Your task to perform on an android device: Search for hotels in Buenos aires Image 0: 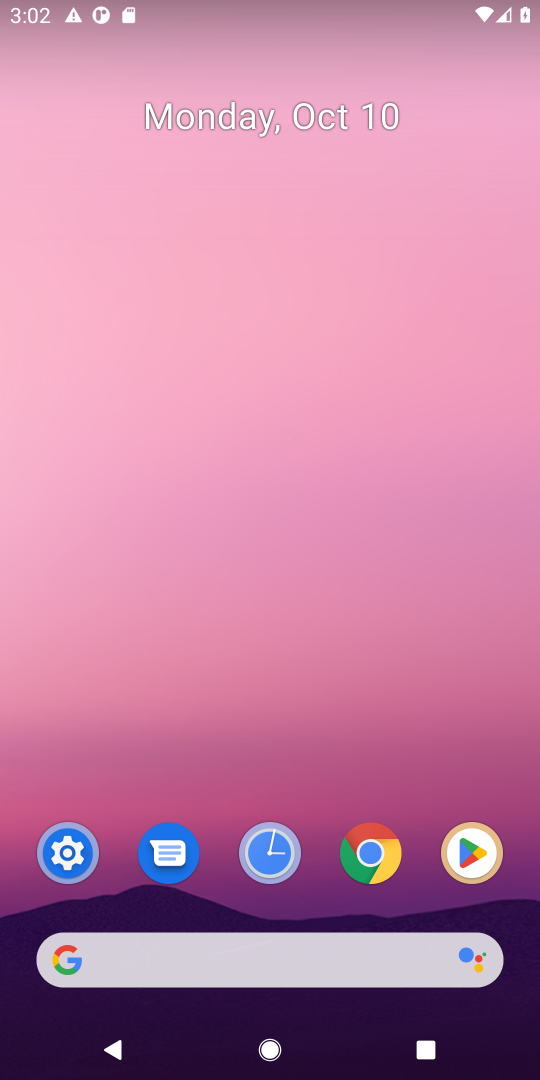
Step 0: click (378, 867)
Your task to perform on an android device: Search for hotels in Buenos aires Image 1: 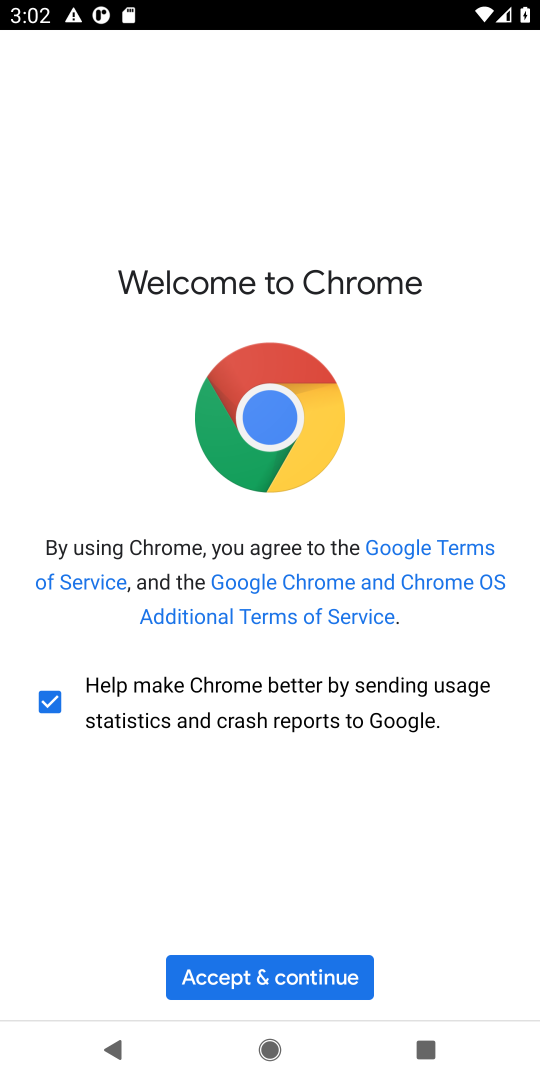
Step 1: click (240, 975)
Your task to perform on an android device: Search for hotels in Buenos aires Image 2: 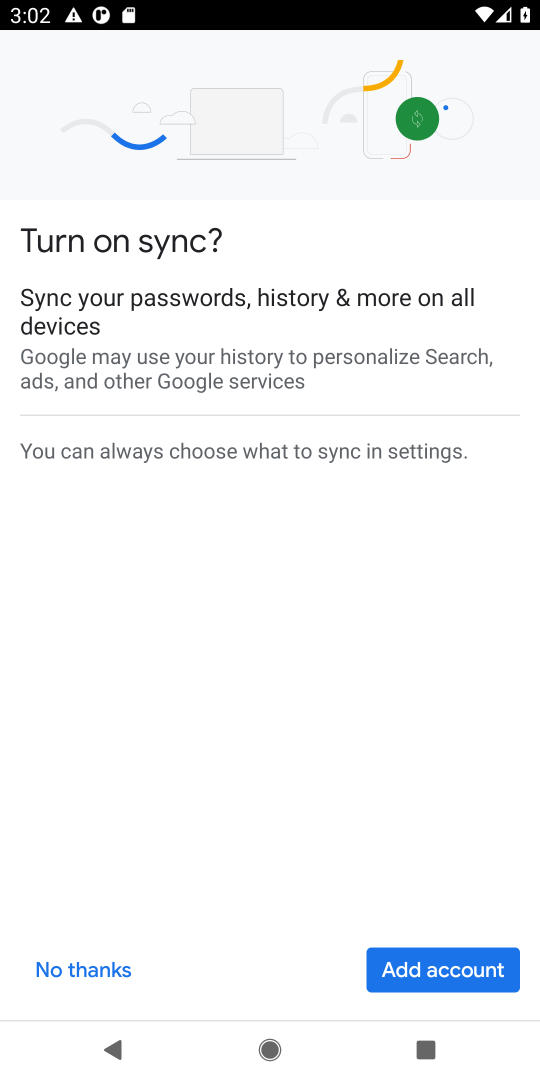
Step 2: click (34, 962)
Your task to perform on an android device: Search for hotels in Buenos aires Image 3: 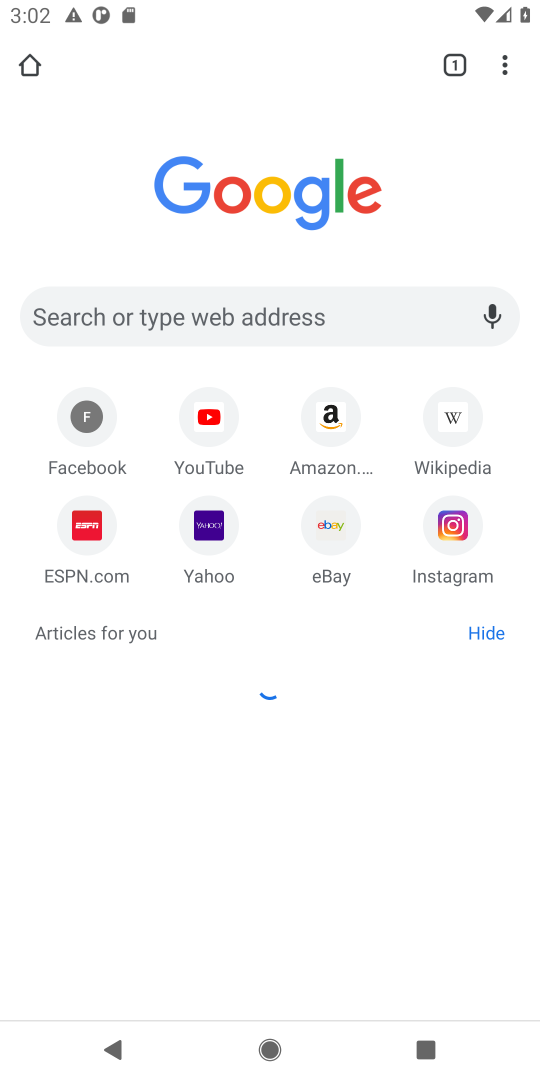
Step 3: click (306, 341)
Your task to perform on an android device: Search for hotels in Buenos aires Image 4: 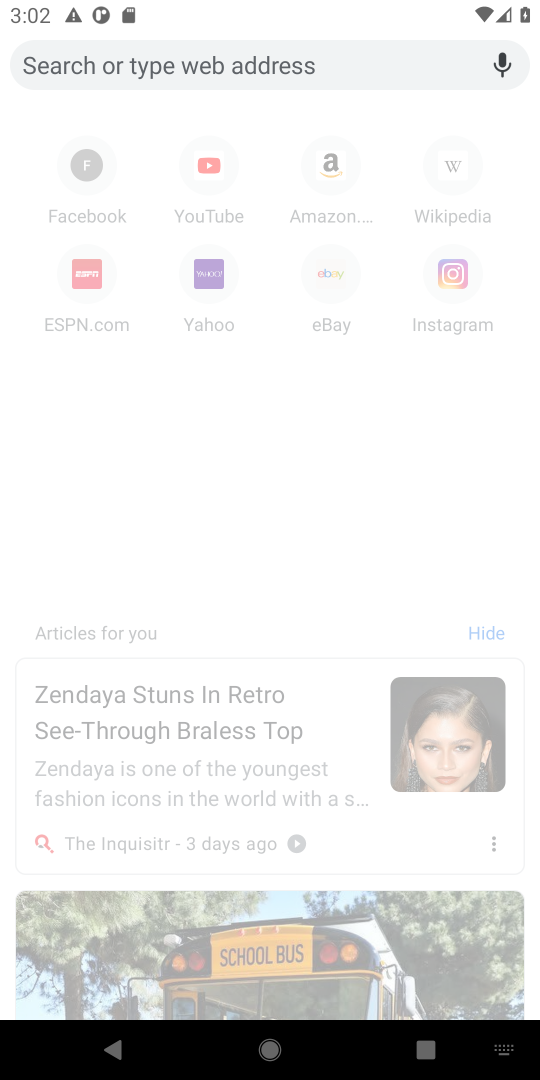
Step 4: type "hotels in Buenos aires"
Your task to perform on an android device: Search for hotels in Buenos aires Image 5: 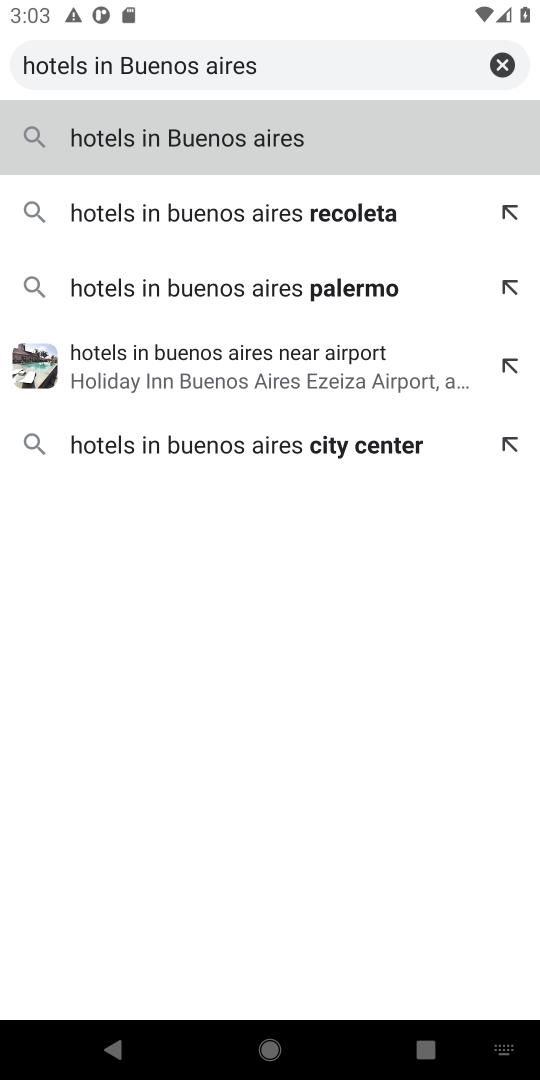
Step 5: press enter
Your task to perform on an android device: Search for hotels in Buenos aires Image 6: 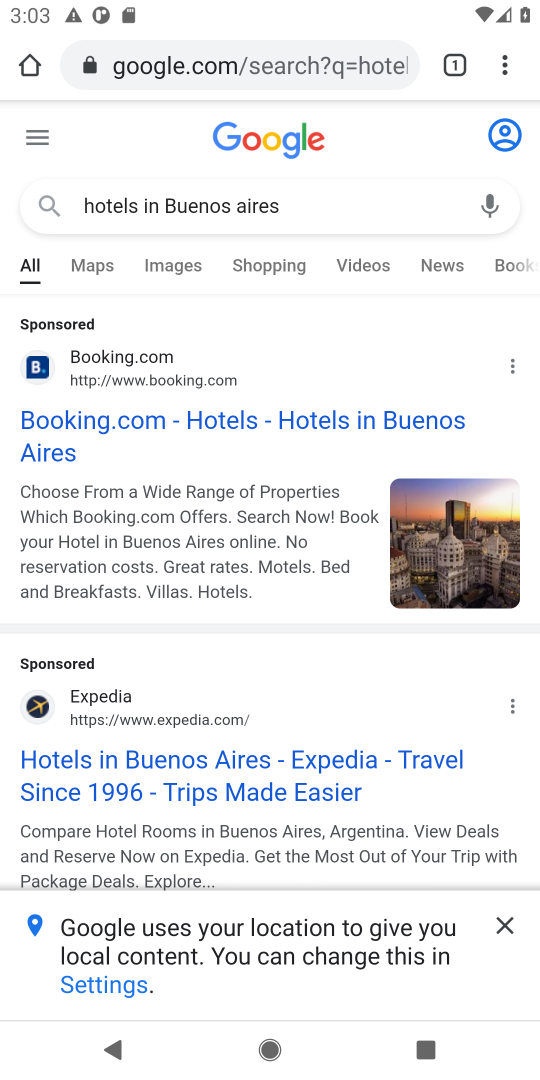
Step 6: click (290, 421)
Your task to perform on an android device: Search for hotels in Buenos aires Image 7: 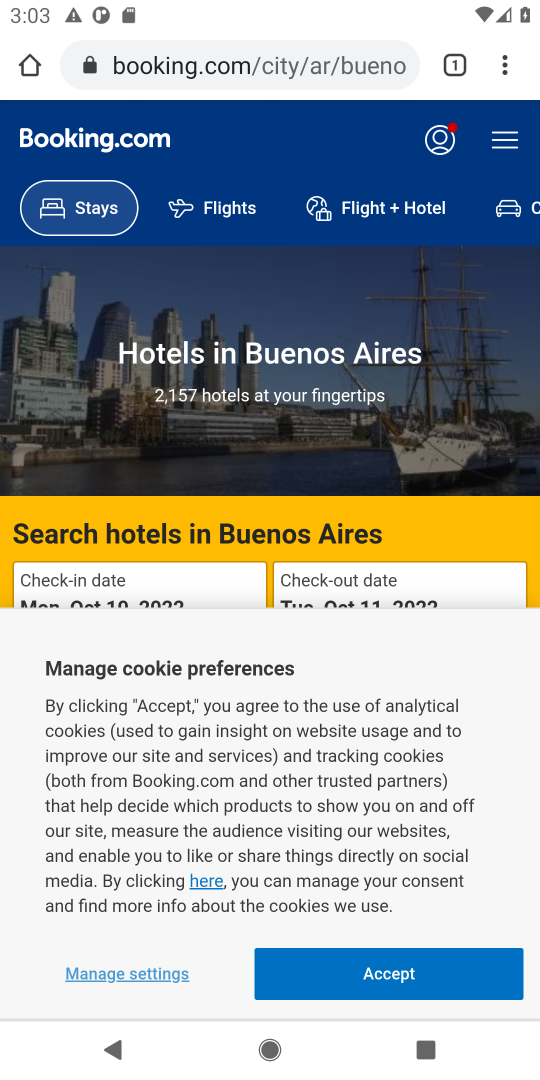
Step 7: click (310, 264)
Your task to perform on an android device: Search for hotels in Buenos aires Image 8: 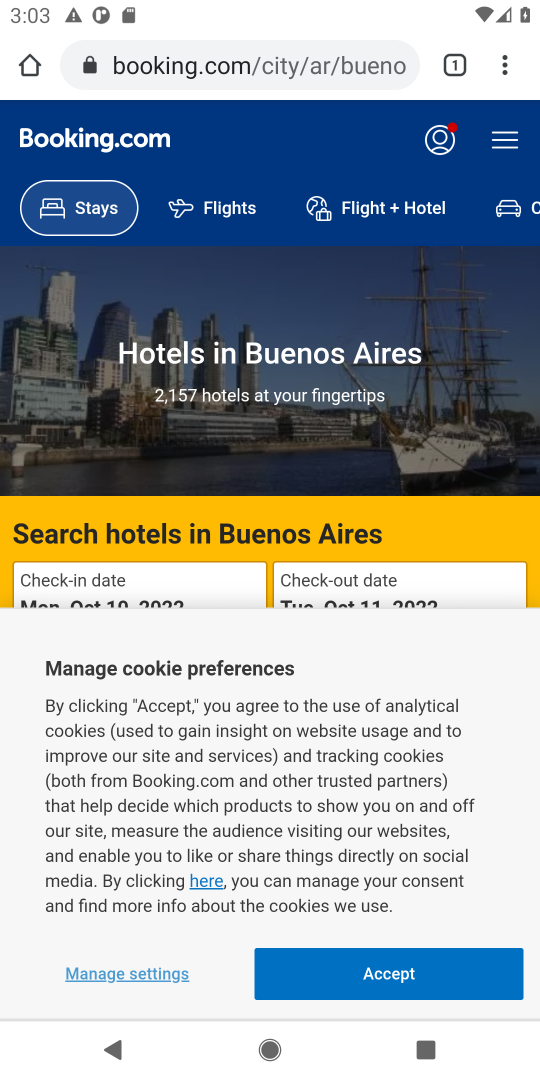
Step 8: click (386, 974)
Your task to perform on an android device: Search for hotels in Buenos aires Image 9: 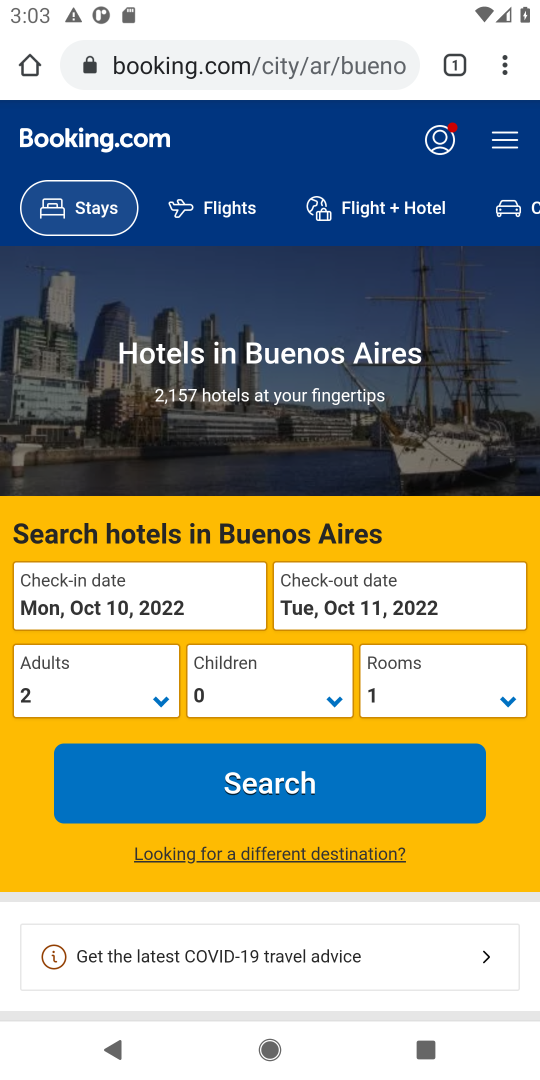
Step 9: drag from (396, 934) to (418, 234)
Your task to perform on an android device: Search for hotels in Buenos aires Image 10: 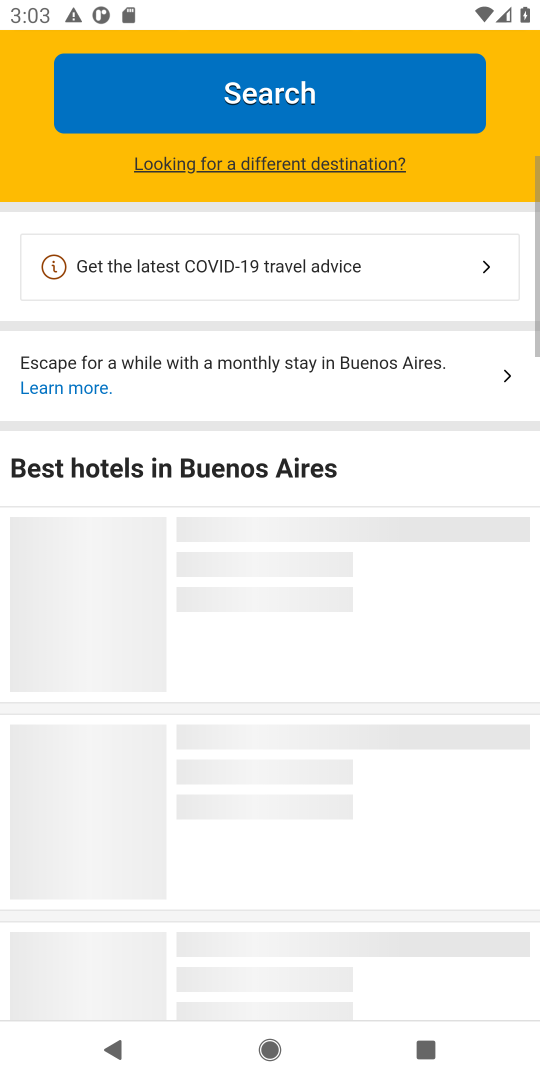
Step 10: drag from (316, 731) to (432, 259)
Your task to perform on an android device: Search for hotels in Buenos aires Image 11: 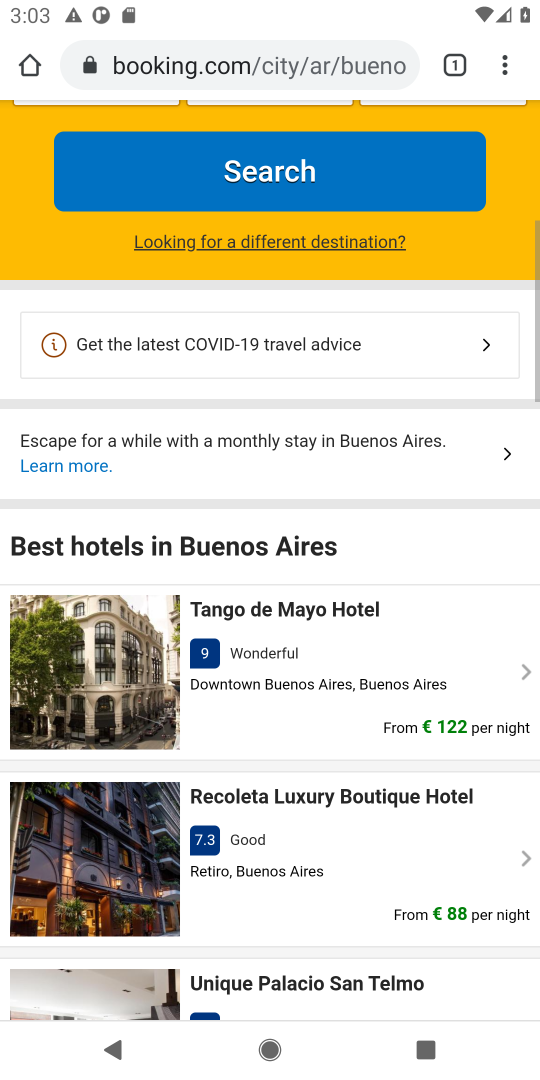
Step 11: drag from (400, 686) to (429, 180)
Your task to perform on an android device: Search for hotels in Buenos aires Image 12: 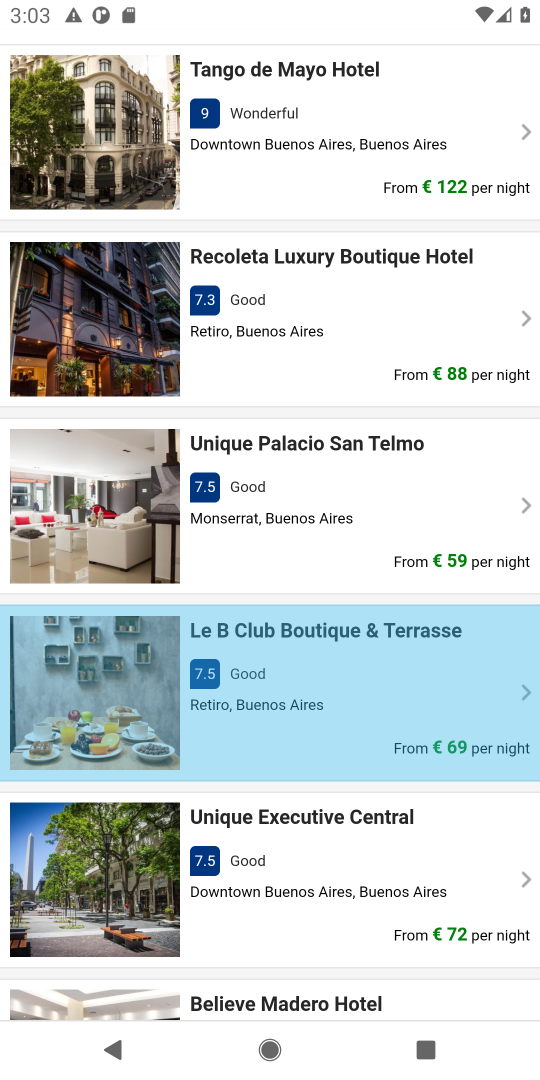
Step 12: drag from (442, 282) to (415, 409)
Your task to perform on an android device: Search for hotels in Buenos aires Image 13: 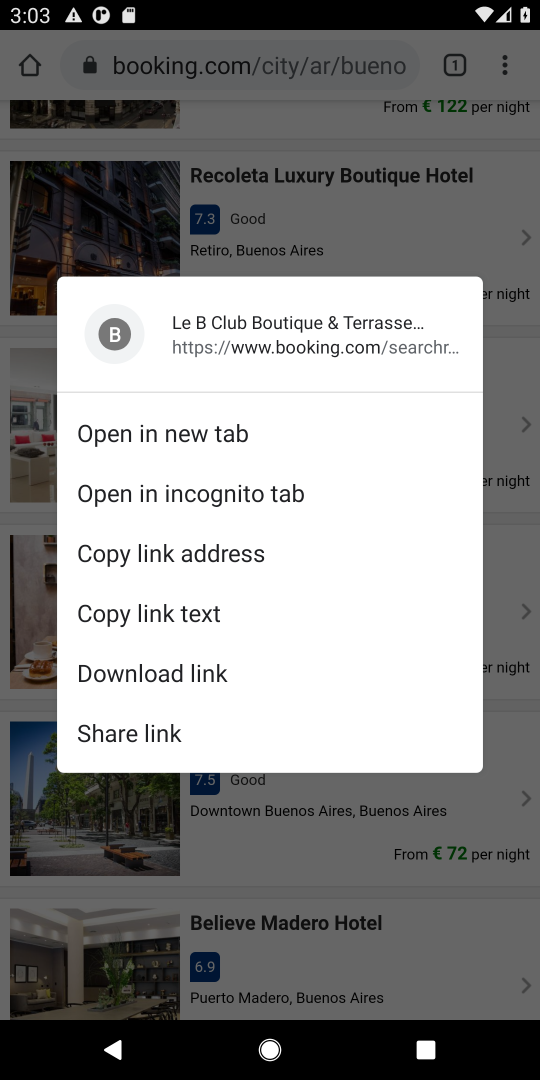
Step 13: drag from (398, 677) to (405, 503)
Your task to perform on an android device: Search for hotels in Buenos aires Image 14: 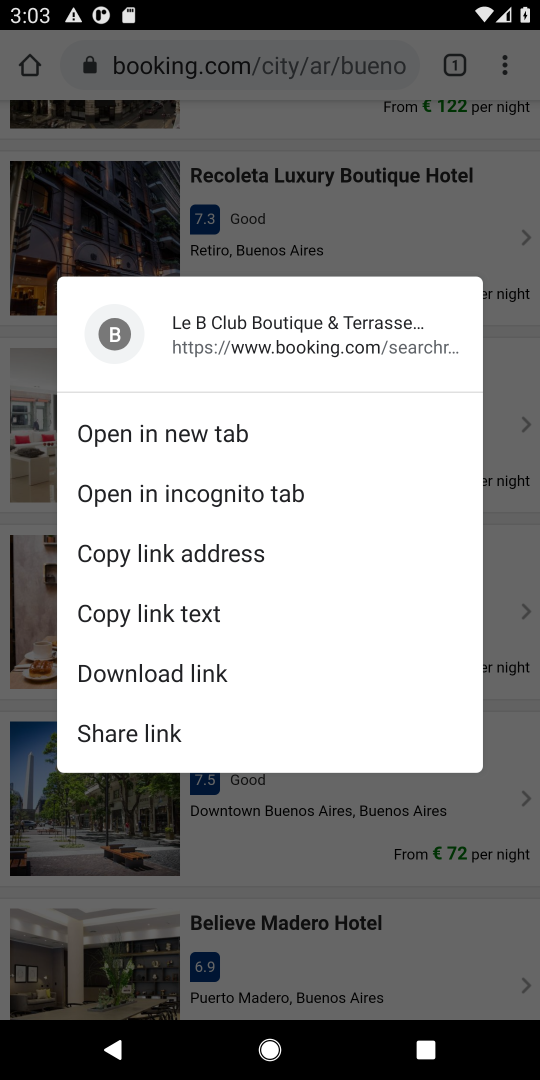
Step 14: click (371, 153)
Your task to perform on an android device: Search for hotels in Buenos aires Image 15: 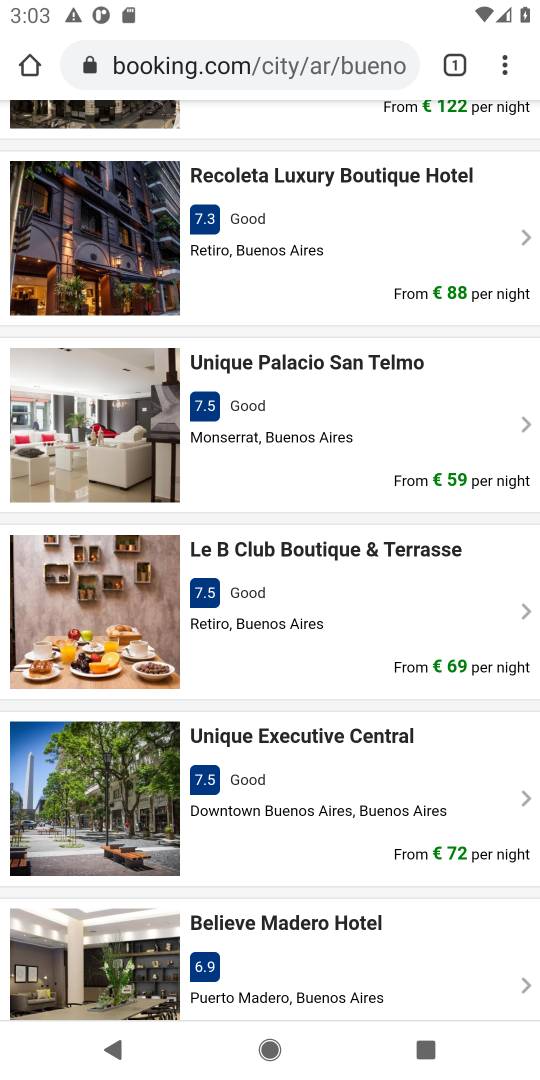
Step 15: drag from (290, 674) to (342, 235)
Your task to perform on an android device: Search for hotels in Buenos aires Image 16: 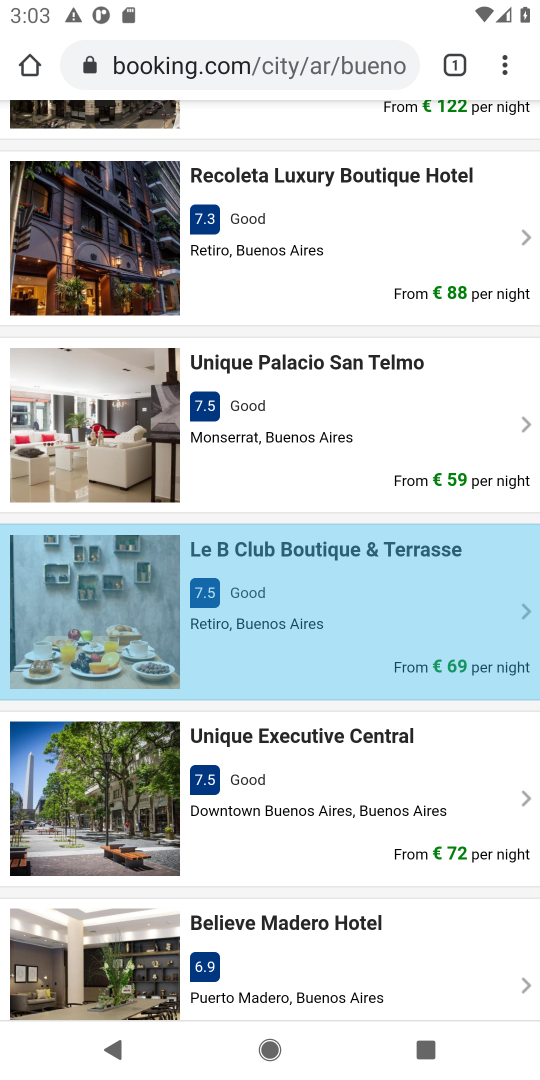
Step 16: drag from (269, 657) to (311, 297)
Your task to perform on an android device: Search for hotels in Buenos aires Image 17: 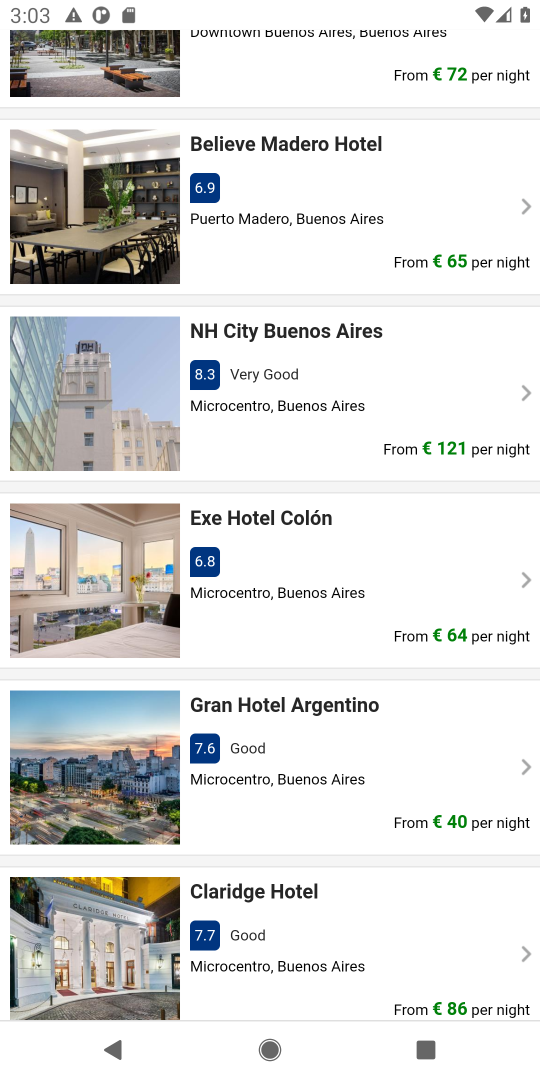
Step 17: press back button
Your task to perform on an android device: Search for hotels in Buenos aires Image 18: 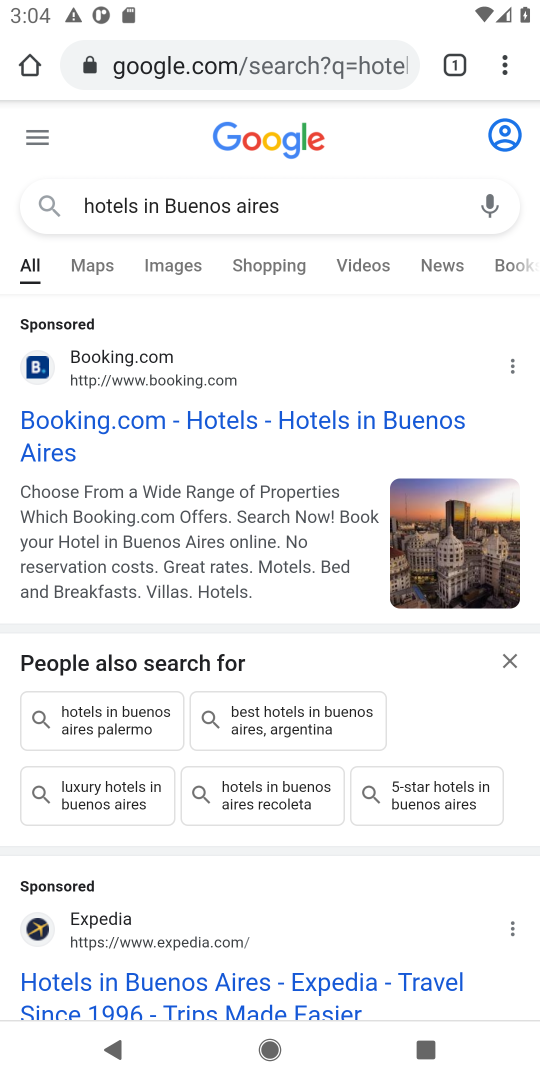
Step 18: drag from (448, 373) to (447, 298)
Your task to perform on an android device: Search for hotels in Buenos aires Image 19: 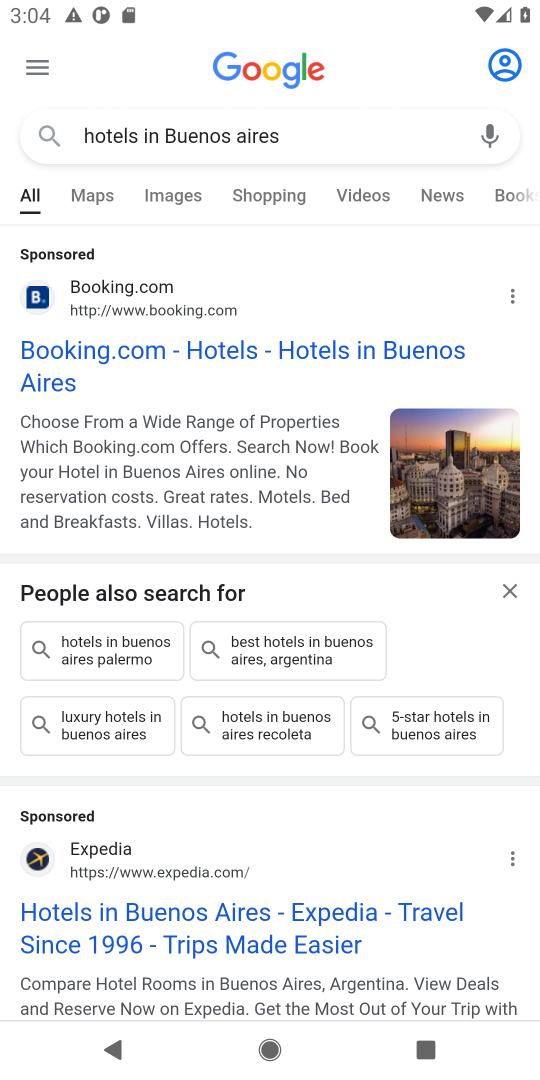
Step 19: click (180, 903)
Your task to perform on an android device: Search for hotels in Buenos aires Image 20: 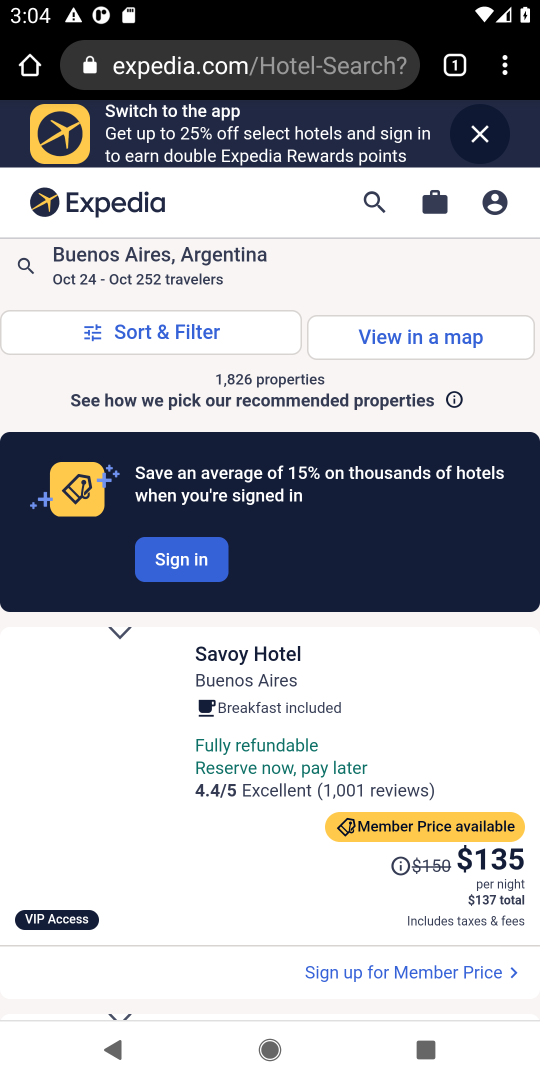
Step 20: drag from (186, 933) to (257, 443)
Your task to perform on an android device: Search for hotels in Buenos aires Image 21: 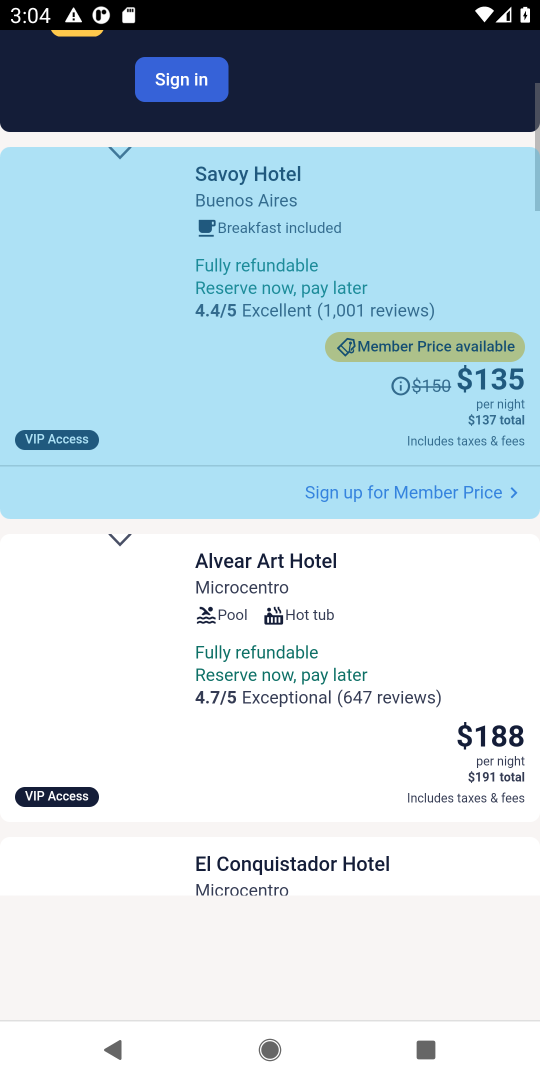
Step 21: drag from (233, 714) to (267, 348)
Your task to perform on an android device: Search for hotels in Buenos aires Image 22: 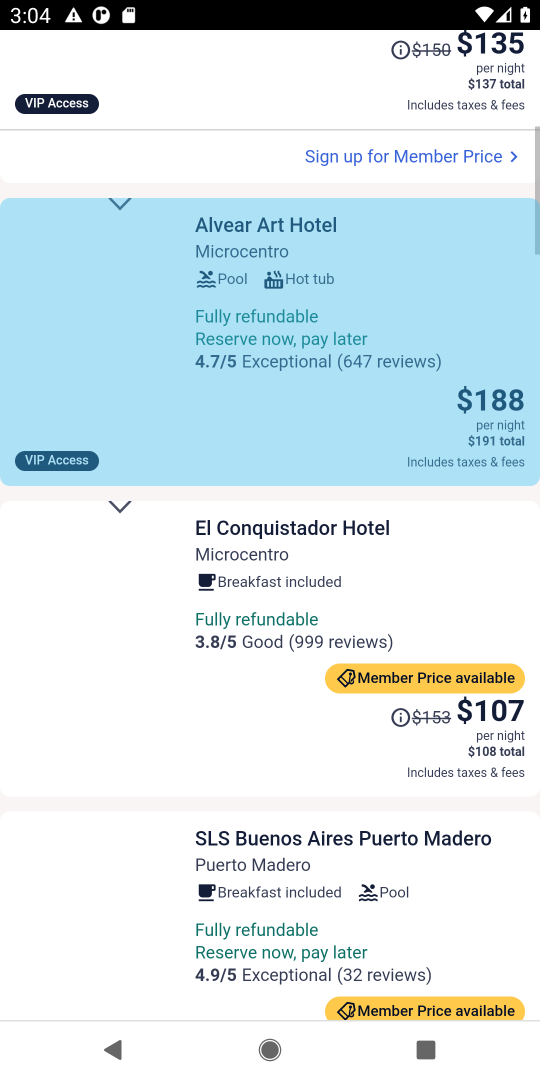
Step 22: drag from (231, 676) to (242, 402)
Your task to perform on an android device: Search for hotels in Buenos aires Image 23: 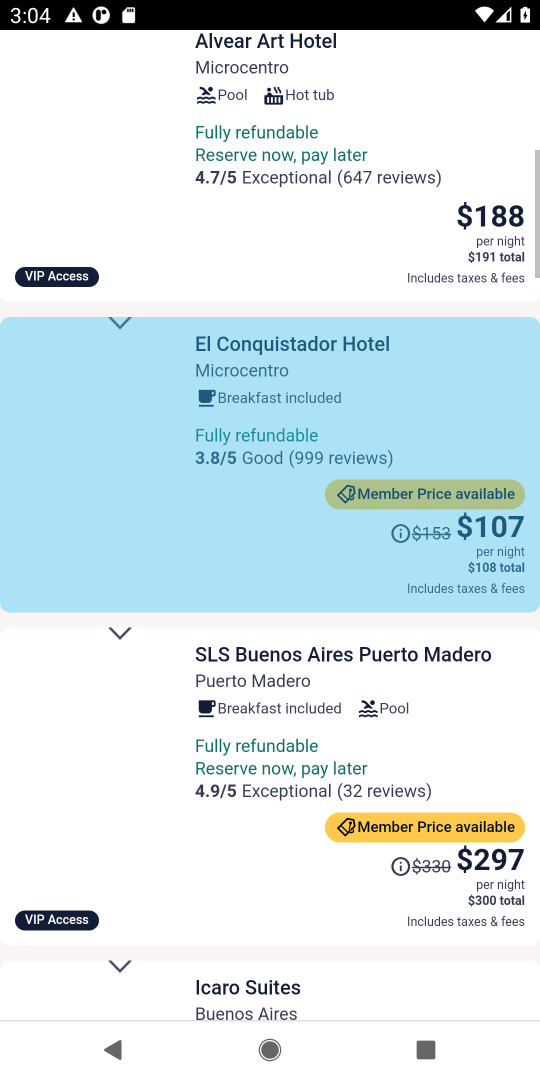
Step 23: drag from (250, 638) to (264, 377)
Your task to perform on an android device: Search for hotels in Buenos aires Image 24: 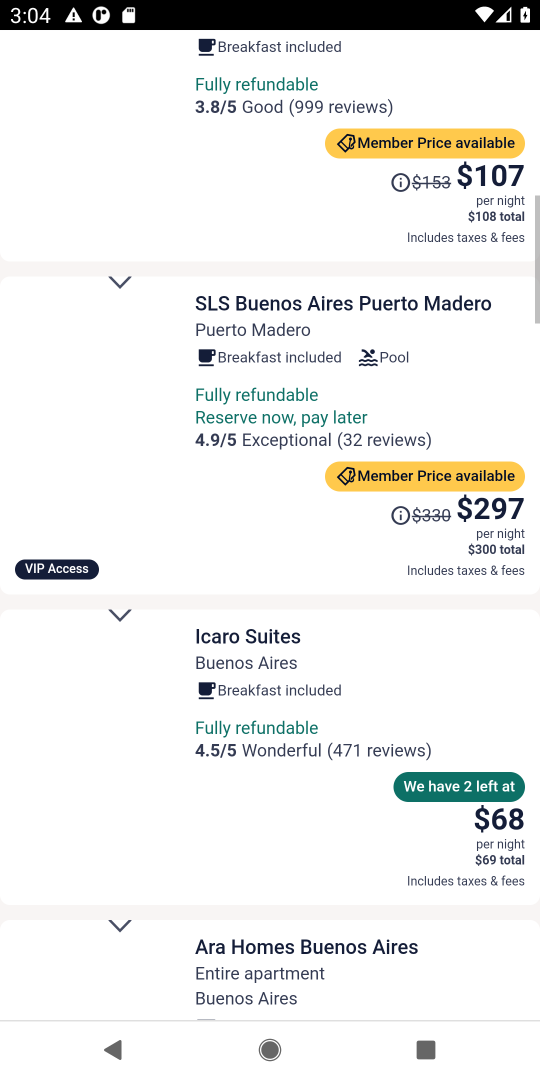
Step 24: drag from (249, 596) to (306, 261)
Your task to perform on an android device: Search for hotels in Buenos aires Image 25: 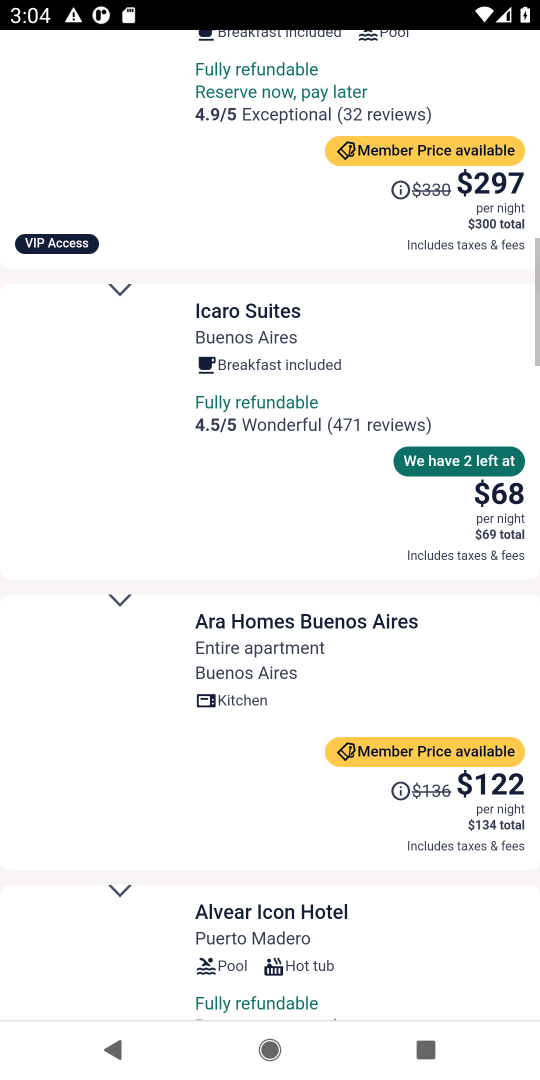
Step 25: drag from (362, 422) to (389, 319)
Your task to perform on an android device: Search for hotels in Buenos aires Image 26: 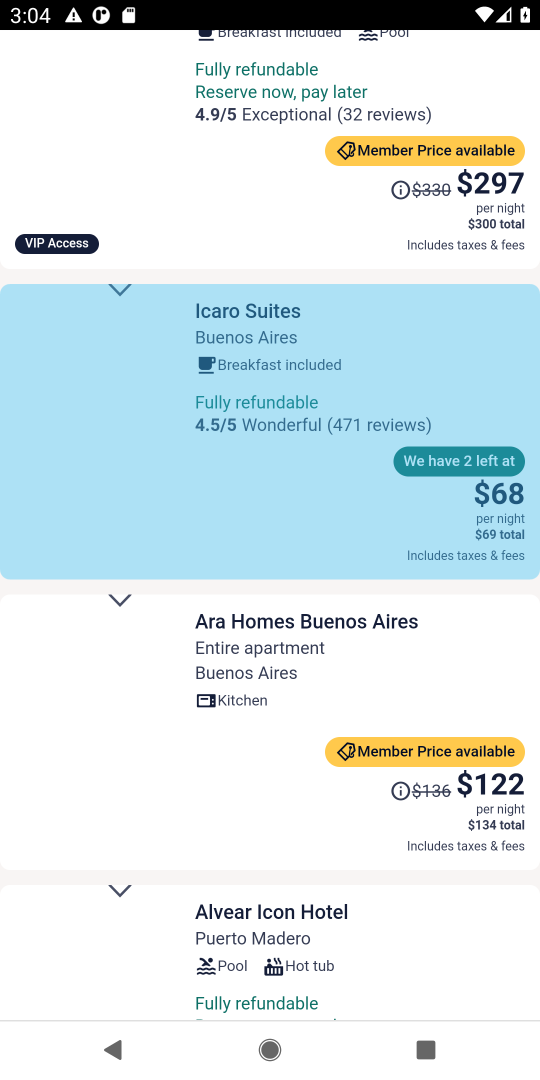
Step 26: drag from (335, 401) to (350, 256)
Your task to perform on an android device: Search for hotels in Buenos aires Image 27: 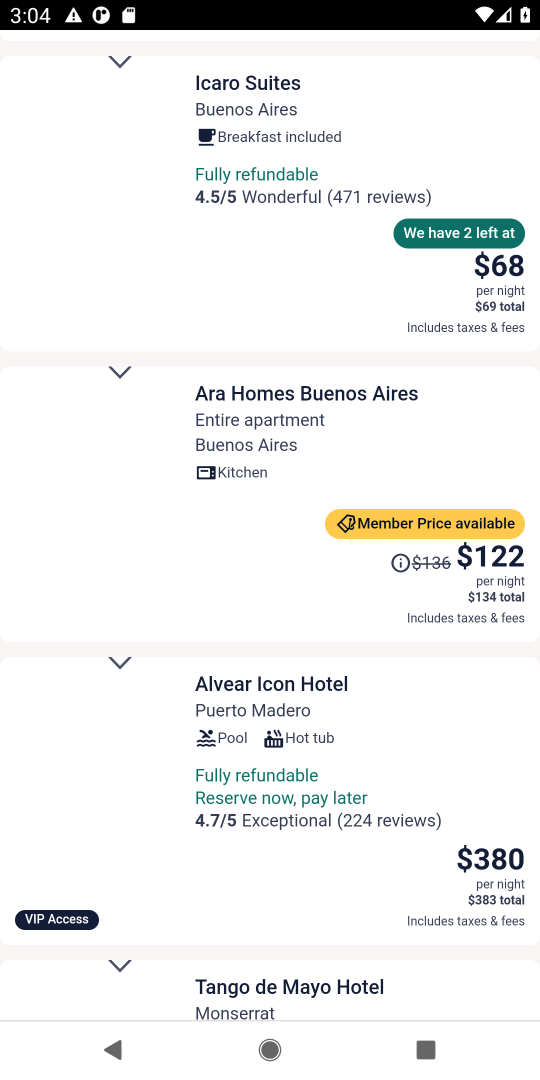
Step 27: drag from (358, 608) to (372, 275)
Your task to perform on an android device: Search for hotels in Buenos aires Image 28: 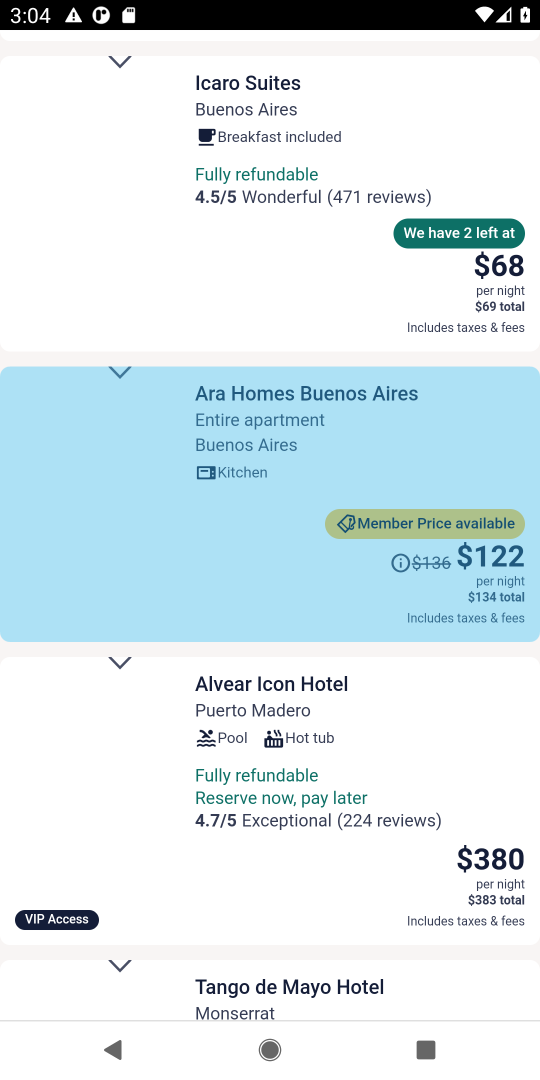
Step 28: drag from (261, 793) to (318, 426)
Your task to perform on an android device: Search for hotels in Buenos aires Image 29: 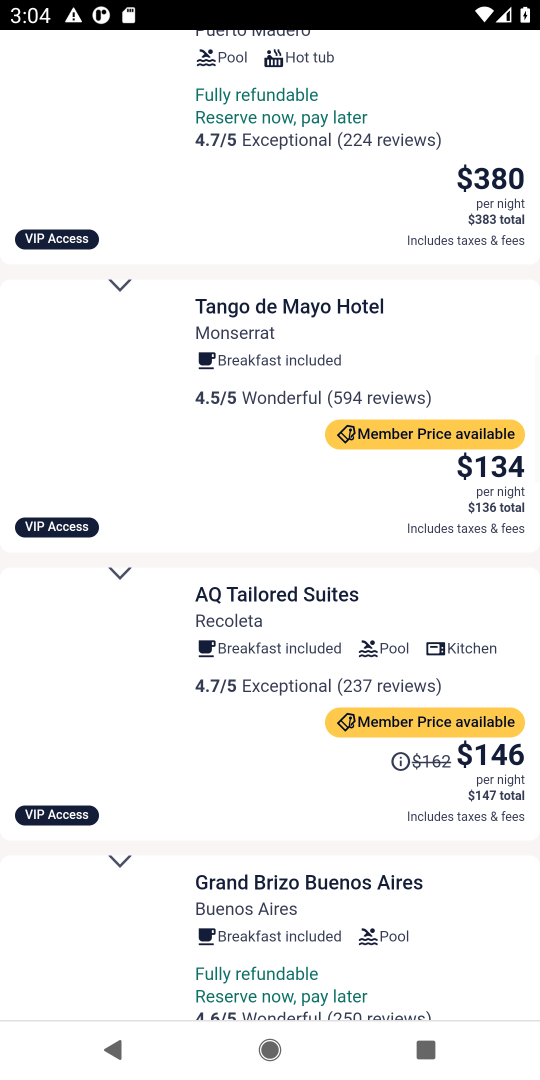
Step 29: press back button
Your task to perform on an android device: Search for hotels in Buenos aires Image 30: 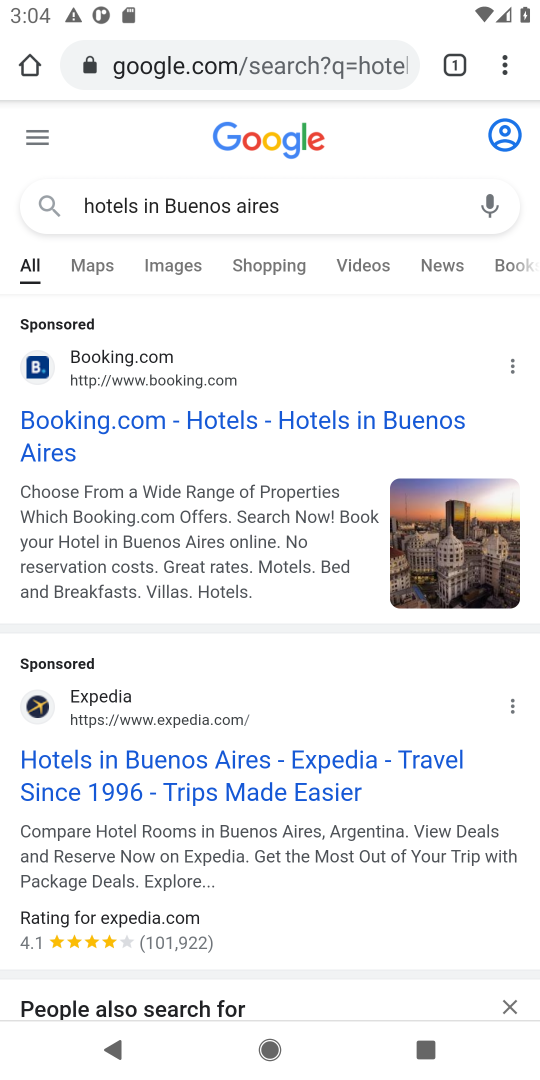
Step 30: drag from (459, 657) to (493, 277)
Your task to perform on an android device: Search for hotels in Buenos aires Image 31: 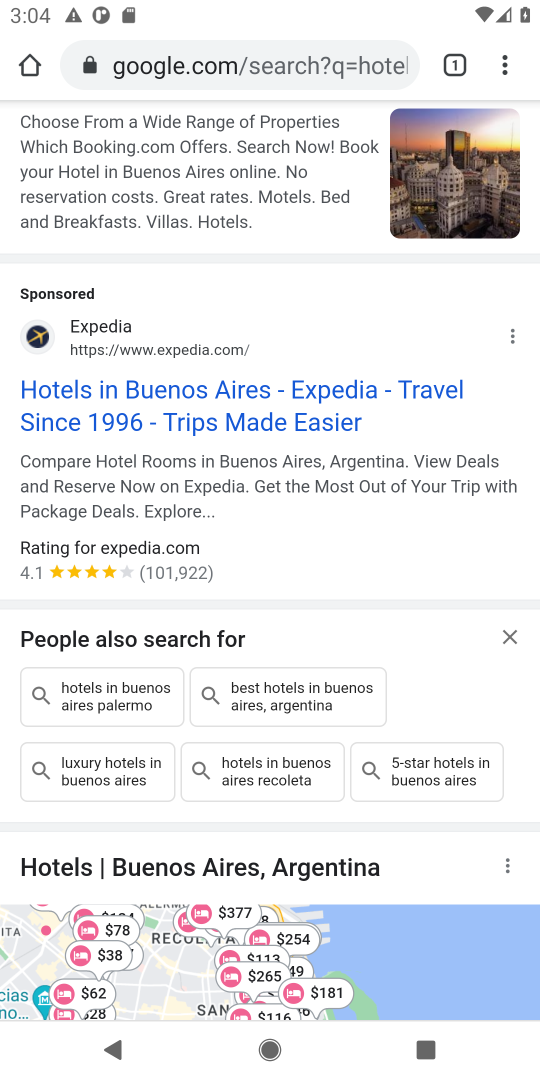
Step 31: drag from (397, 861) to (416, 237)
Your task to perform on an android device: Search for hotels in Buenos aires Image 32: 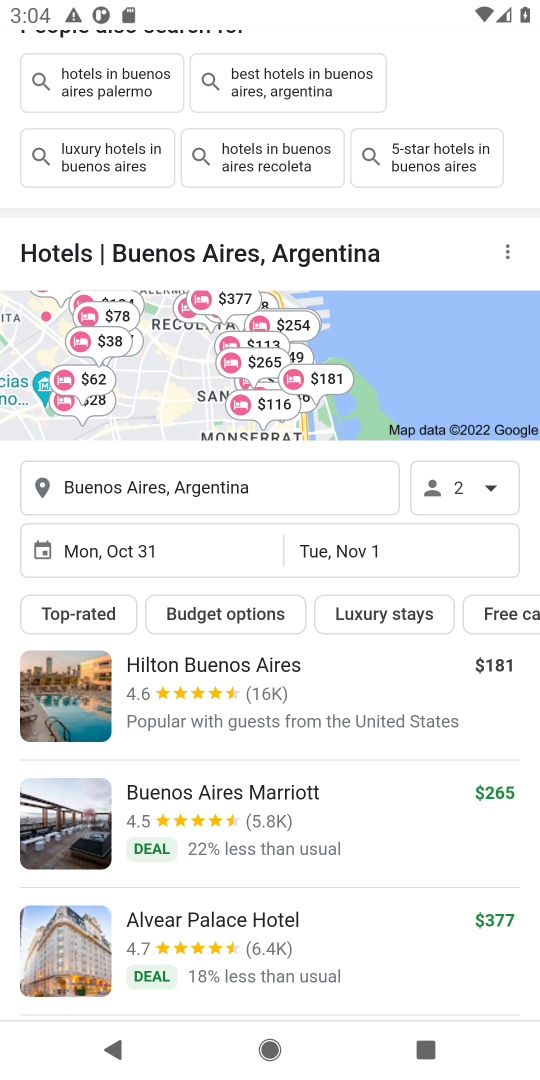
Step 32: drag from (401, 902) to (405, 136)
Your task to perform on an android device: Search for hotels in Buenos aires Image 33: 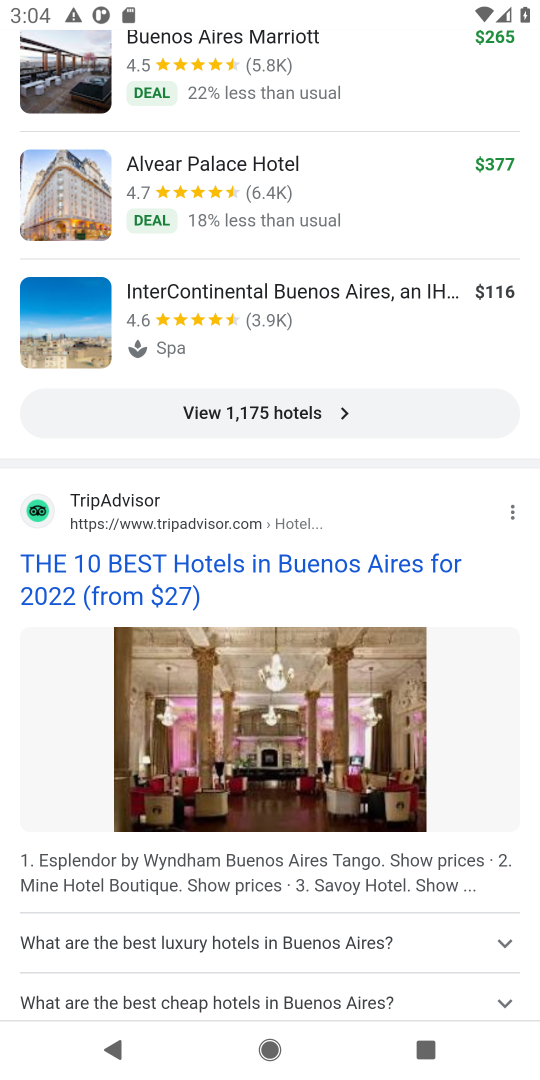
Step 33: drag from (296, 789) to (290, 339)
Your task to perform on an android device: Search for hotels in Buenos aires Image 34: 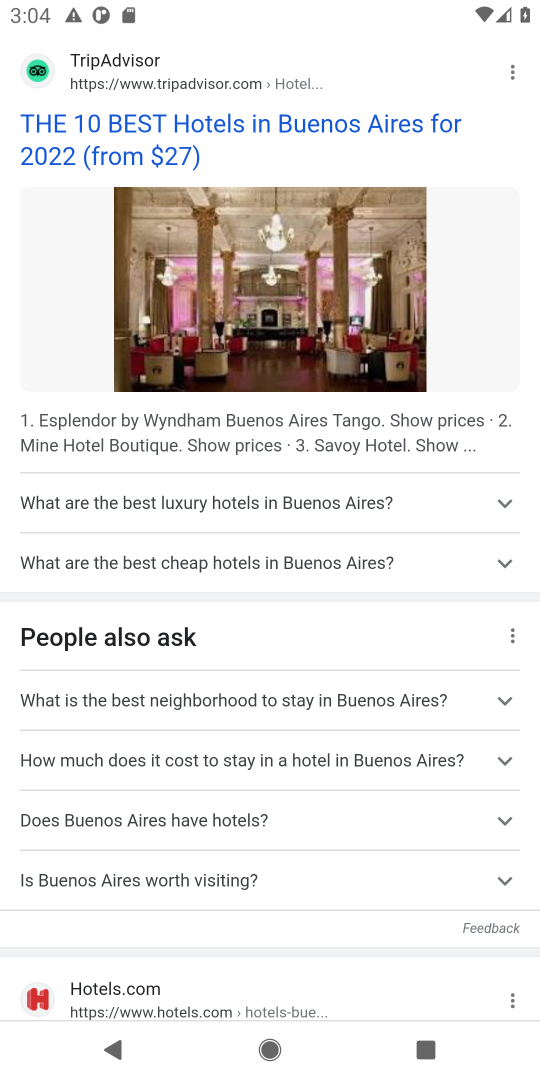
Step 34: click (142, 991)
Your task to perform on an android device: Search for hotels in Buenos aires Image 35: 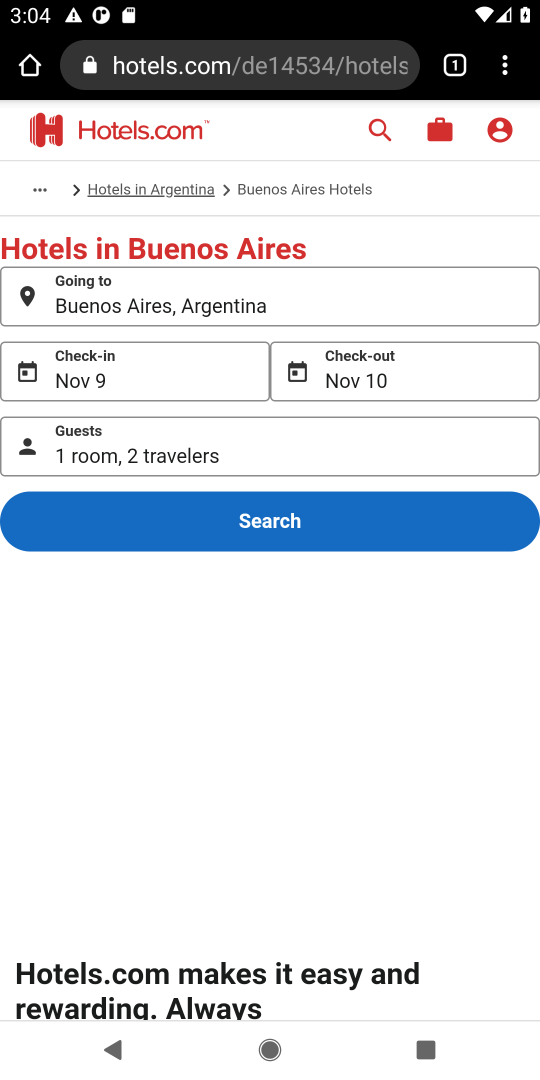
Step 35: drag from (204, 887) to (297, 236)
Your task to perform on an android device: Search for hotels in Buenos aires Image 36: 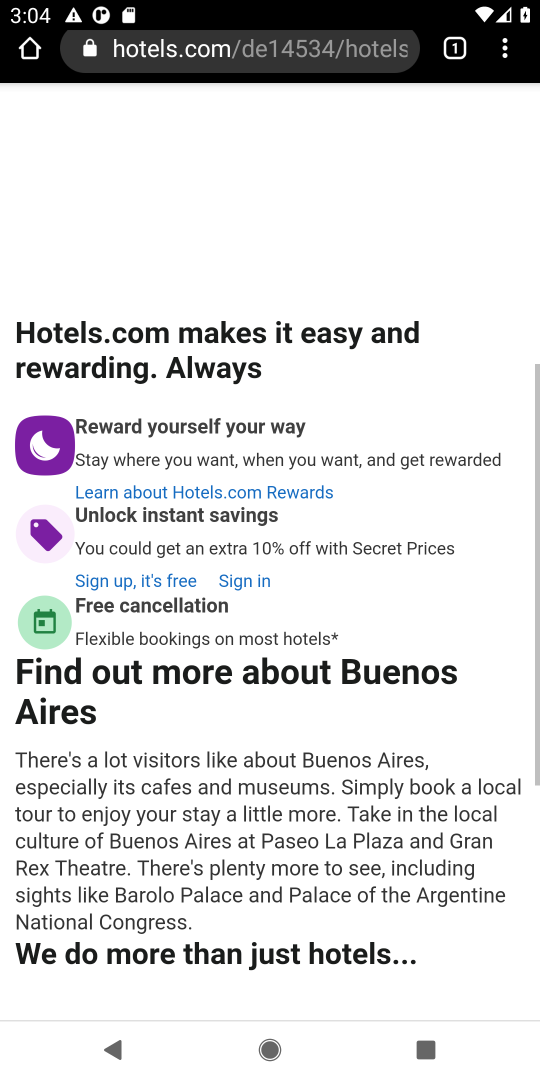
Step 36: drag from (331, 853) to (354, 240)
Your task to perform on an android device: Search for hotels in Buenos aires Image 37: 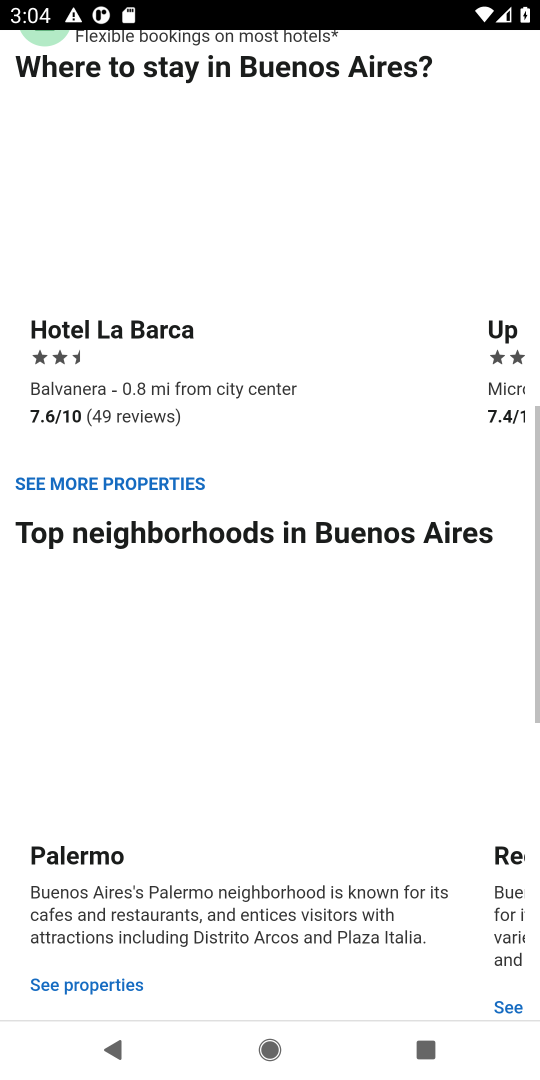
Step 37: drag from (289, 702) to (399, 282)
Your task to perform on an android device: Search for hotels in Buenos aires Image 38: 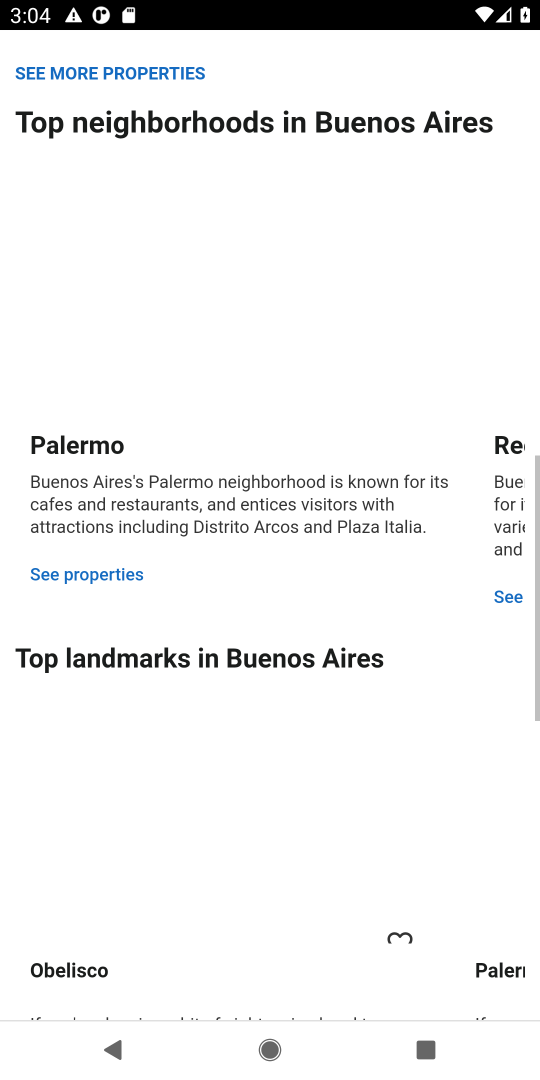
Step 38: drag from (387, 670) to (435, 376)
Your task to perform on an android device: Search for hotels in Buenos aires Image 39: 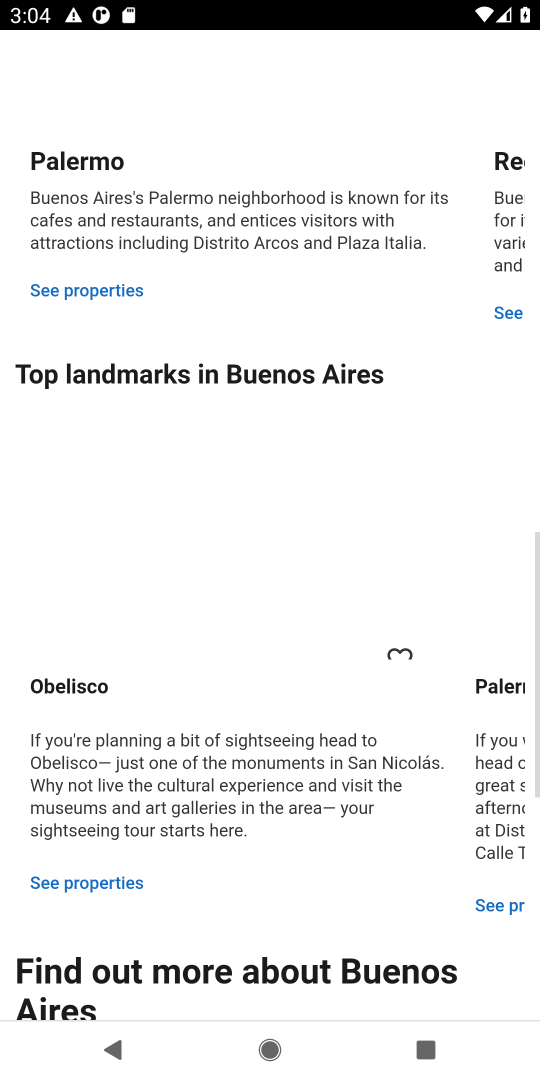
Step 39: drag from (422, 817) to (417, 261)
Your task to perform on an android device: Search for hotels in Buenos aires Image 40: 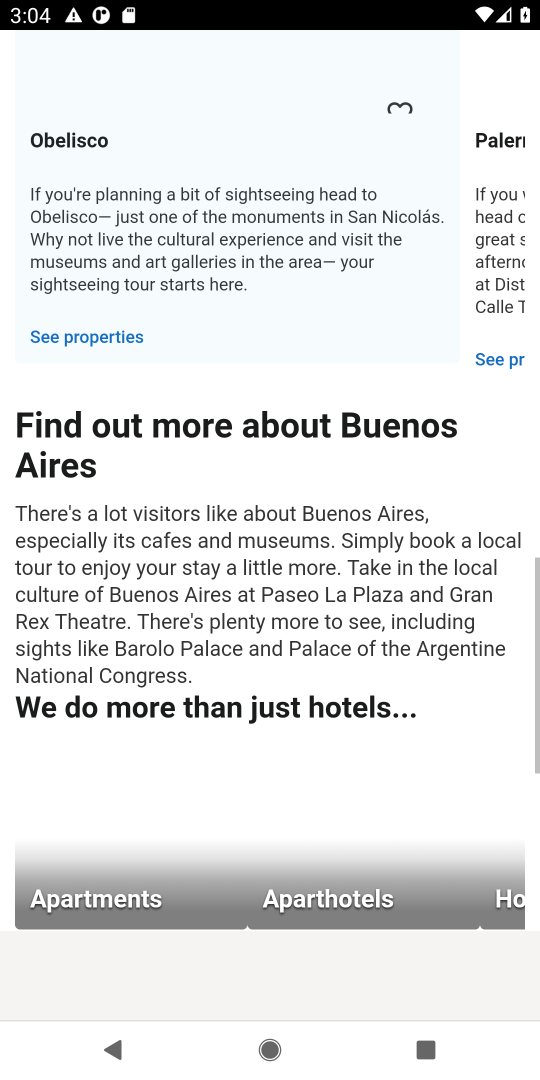
Step 40: drag from (293, 740) to (293, 285)
Your task to perform on an android device: Search for hotels in Buenos aires Image 41: 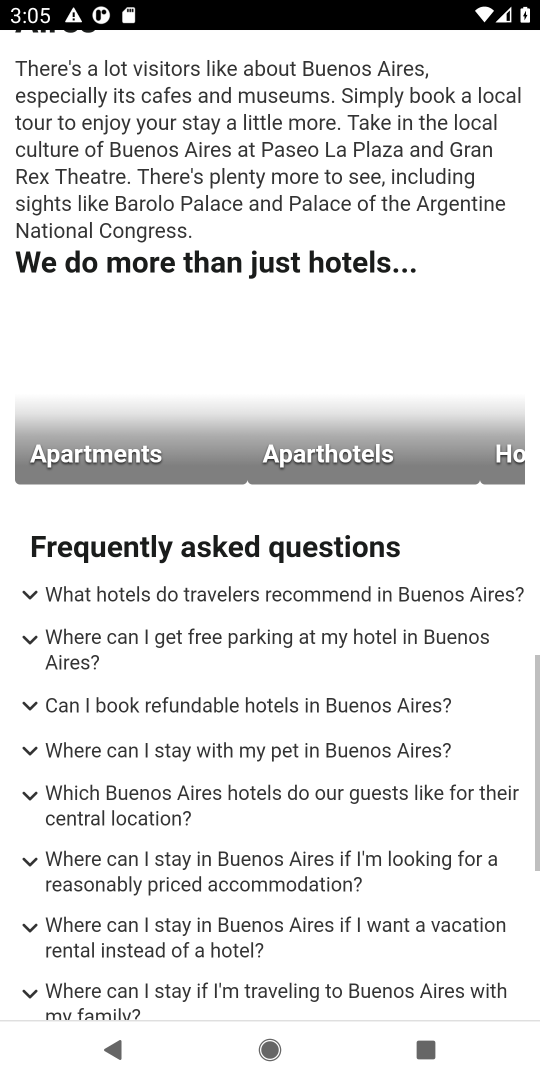
Step 41: drag from (343, 579) to (366, 214)
Your task to perform on an android device: Search for hotels in Buenos aires Image 42: 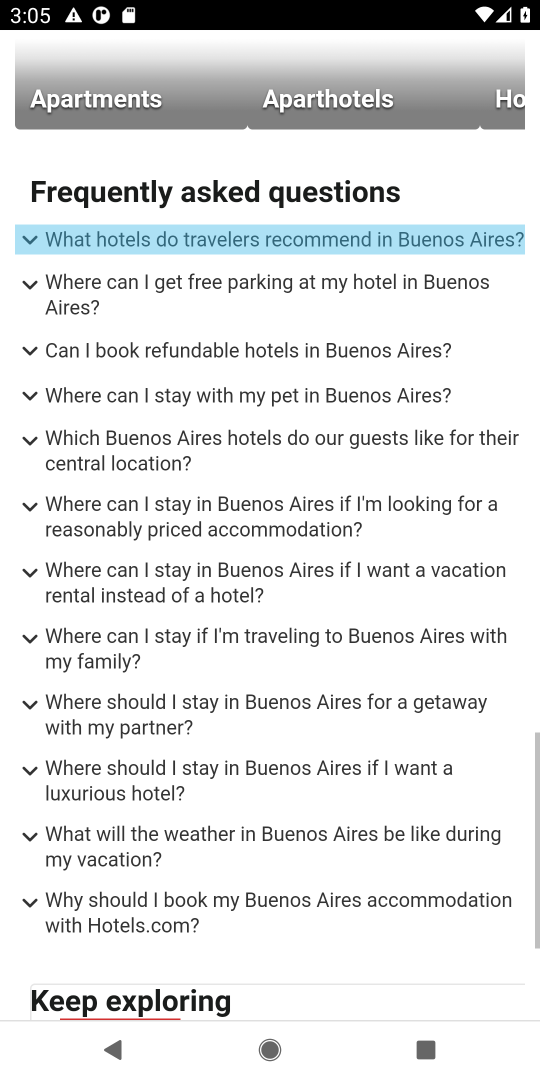
Step 42: drag from (345, 645) to (402, 170)
Your task to perform on an android device: Search for hotels in Buenos aires Image 43: 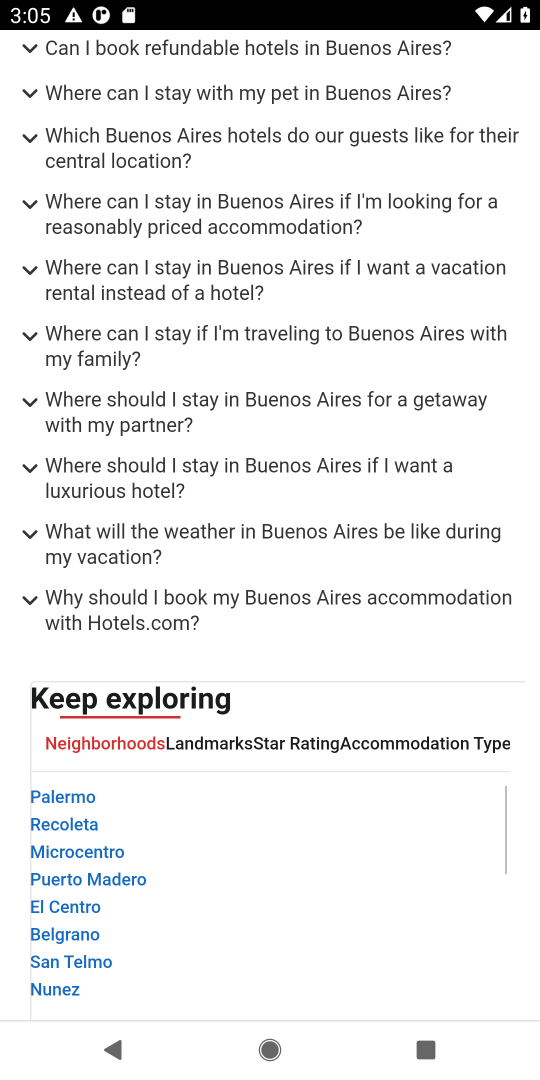
Step 43: drag from (303, 851) to (363, 248)
Your task to perform on an android device: Search for hotels in Buenos aires Image 44: 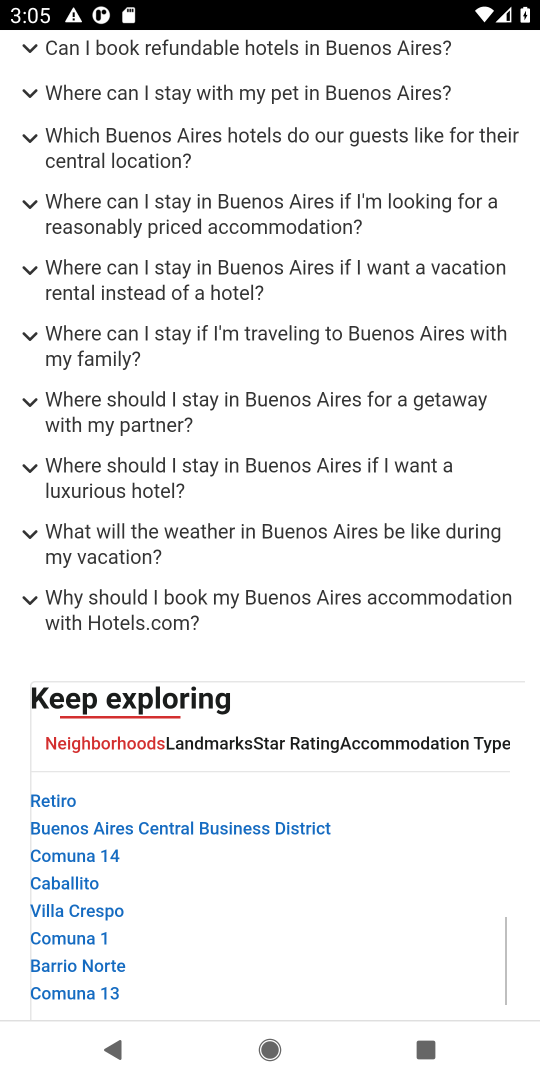
Step 44: drag from (346, 815) to (394, 201)
Your task to perform on an android device: Search for hotels in Buenos aires Image 45: 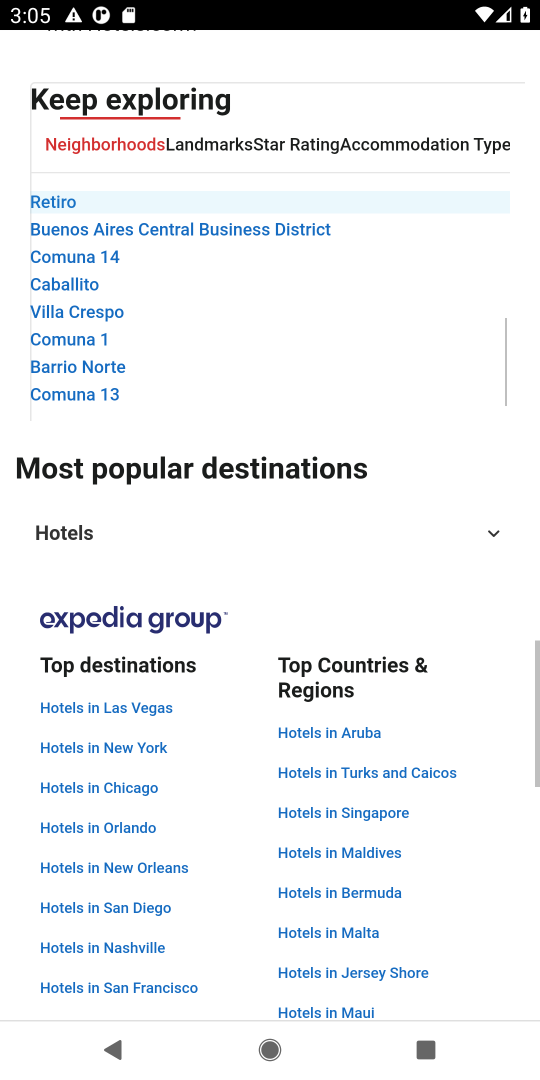
Step 45: drag from (359, 678) to (408, 327)
Your task to perform on an android device: Search for hotels in Buenos aires Image 46: 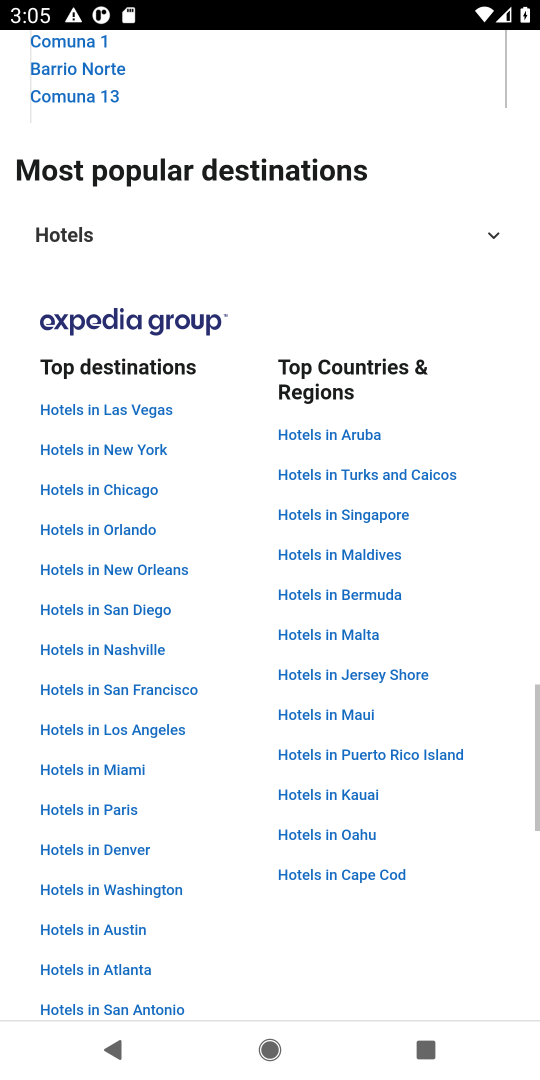
Step 46: drag from (339, 743) to (386, 307)
Your task to perform on an android device: Search for hotels in Buenos aires Image 47: 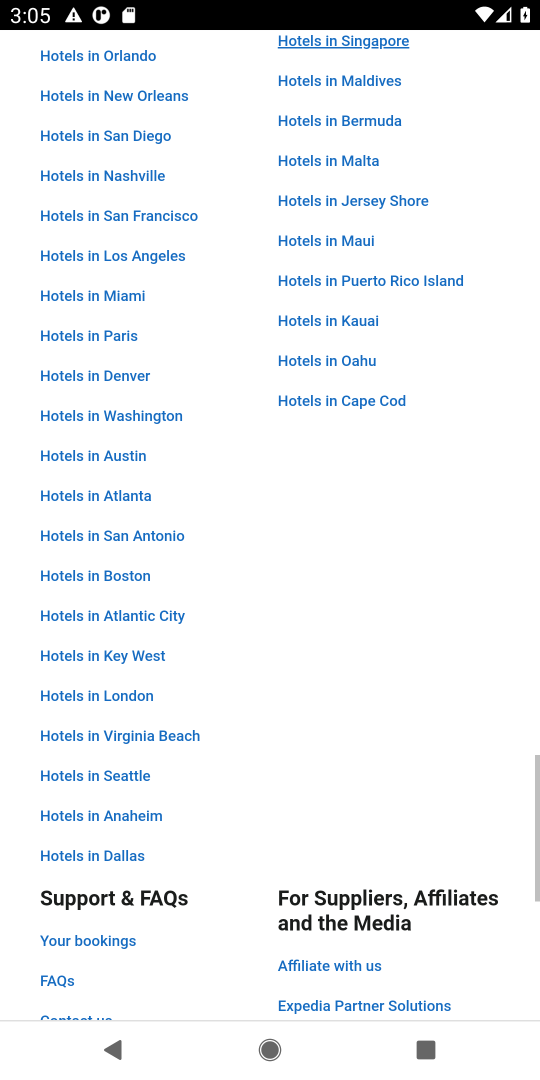
Step 47: drag from (334, 722) to (378, 301)
Your task to perform on an android device: Search for hotels in Buenos aires Image 48: 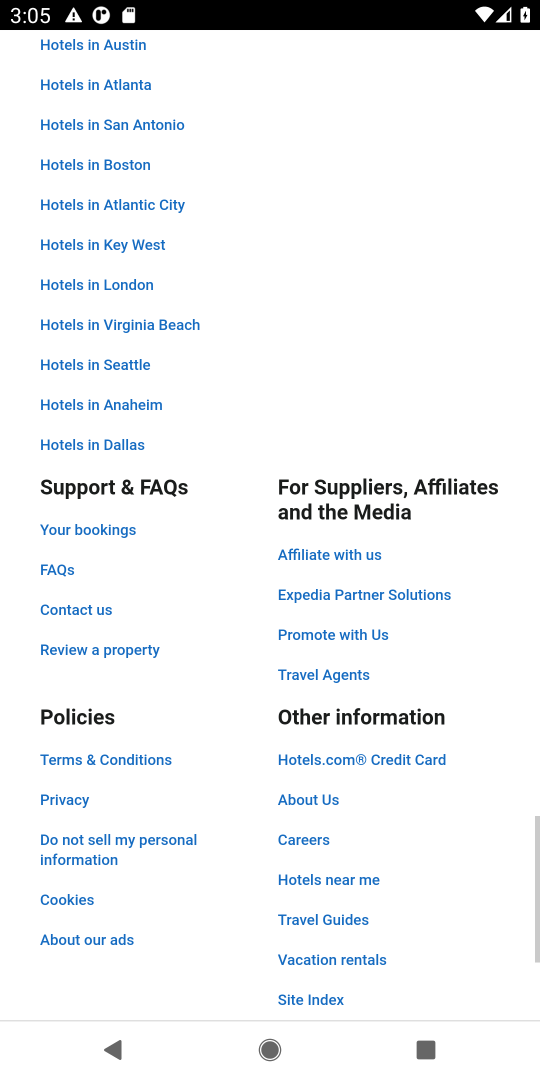
Step 48: drag from (348, 675) to (357, 380)
Your task to perform on an android device: Search for hotels in Buenos aires Image 49: 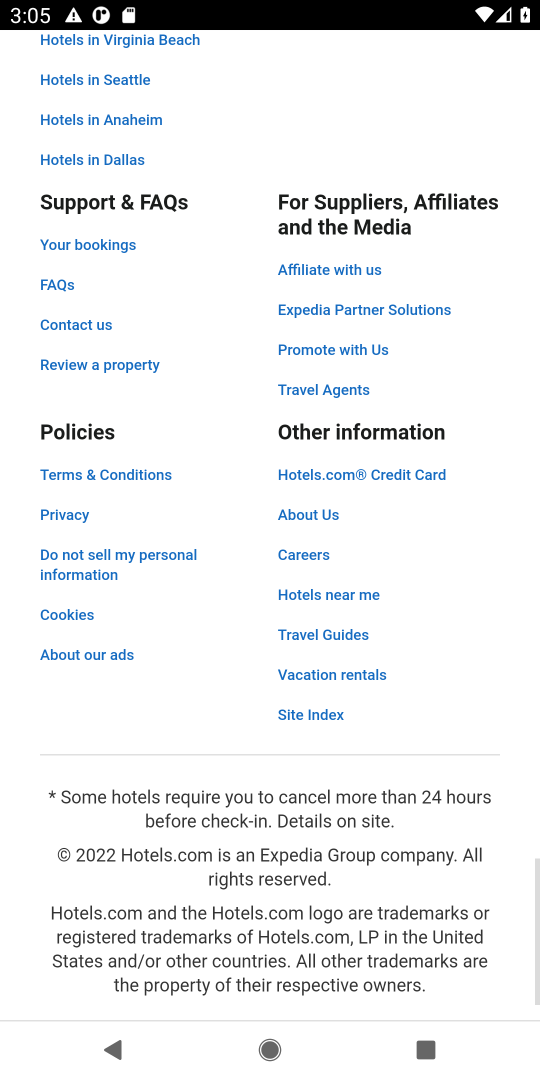
Step 49: drag from (354, 715) to (369, 292)
Your task to perform on an android device: Search for hotels in Buenos aires Image 50: 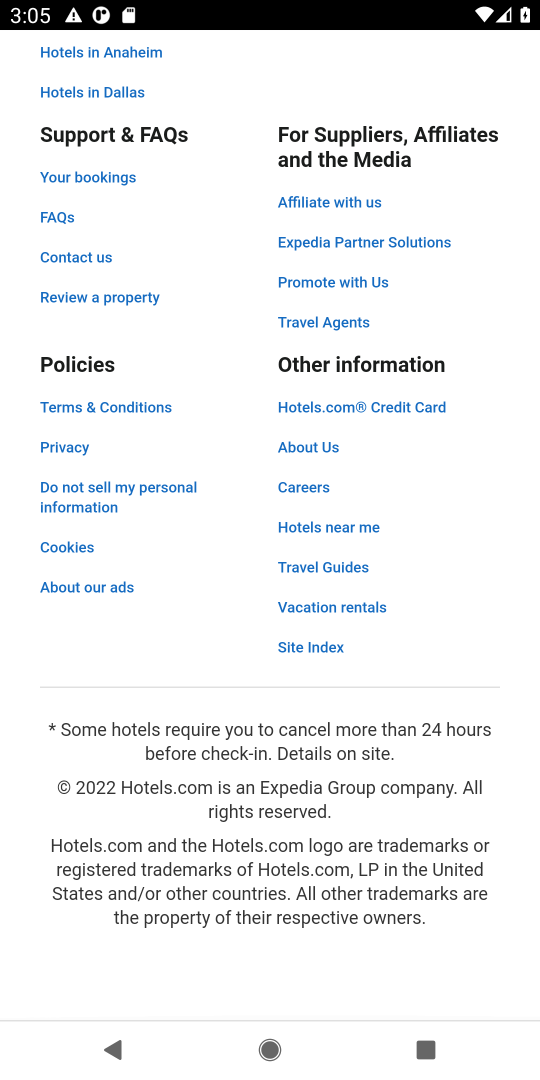
Step 50: drag from (365, 706) to (379, 233)
Your task to perform on an android device: Search for hotels in Buenos aires Image 51: 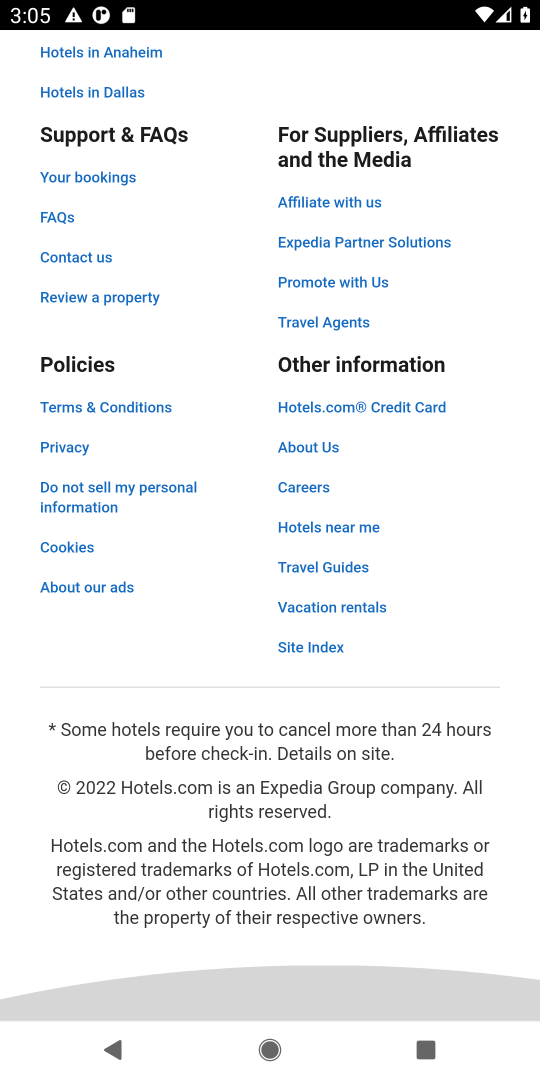
Step 51: drag from (340, 633) to (357, 190)
Your task to perform on an android device: Search for hotels in Buenos aires Image 52: 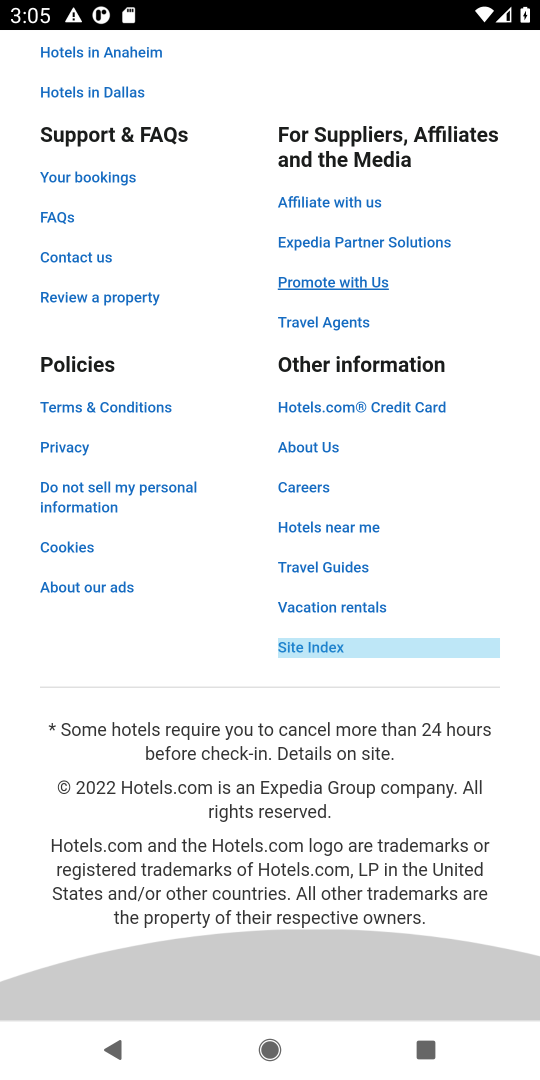
Step 52: drag from (354, 179) to (365, 796)
Your task to perform on an android device: Search for hotels in Buenos aires Image 53: 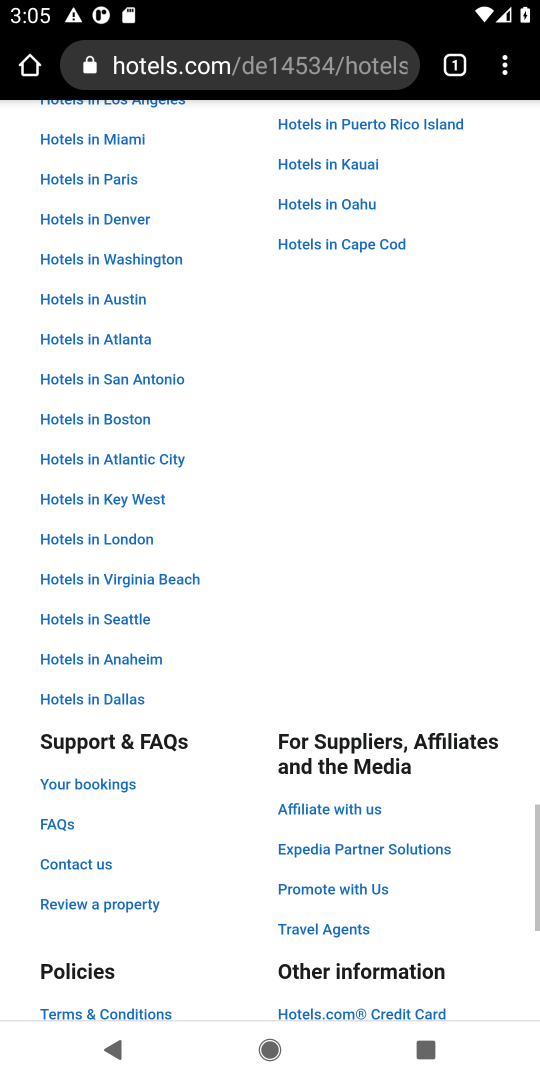
Step 53: drag from (328, 248) to (330, 699)
Your task to perform on an android device: Search for hotels in Buenos aires Image 54: 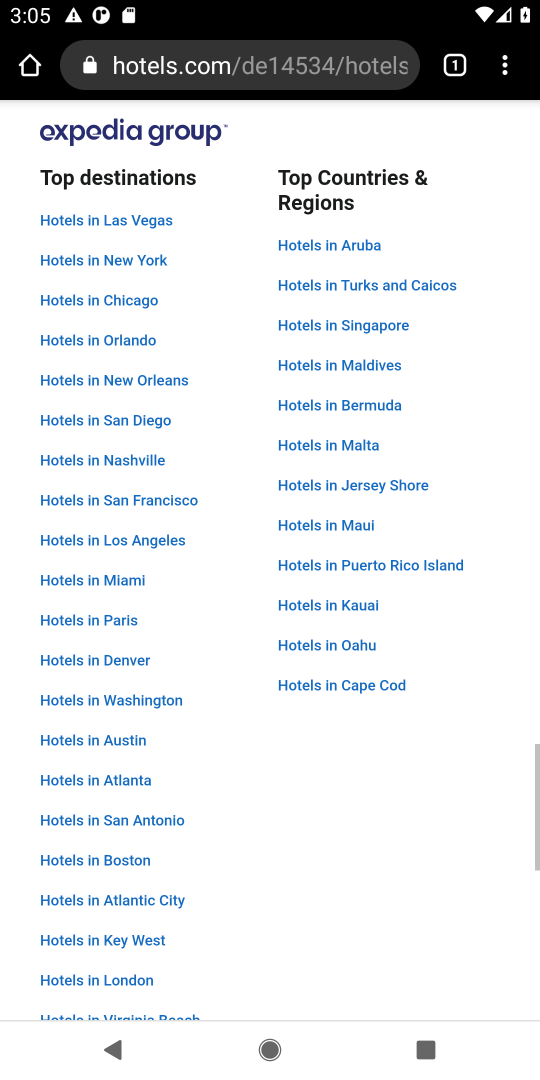
Step 54: drag from (345, 501) to (346, 781)
Your task to perform on an android device: Search for hotels in Buenos aires Image 55: 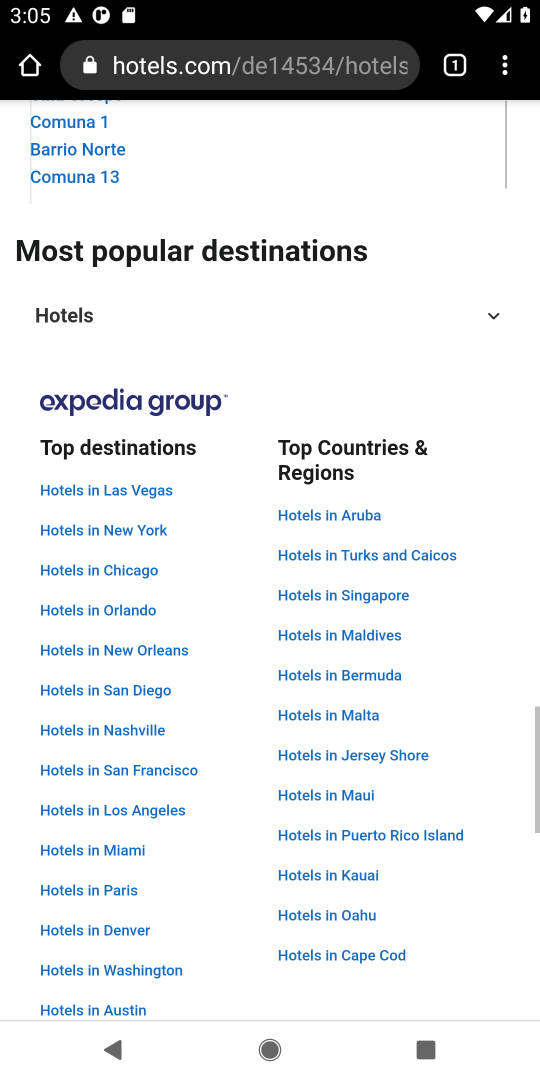
Step 55: drag from (309, 448) to (282, 813)
Your task to perform on an android device: Search for hotels in Buenos aires Image 56: 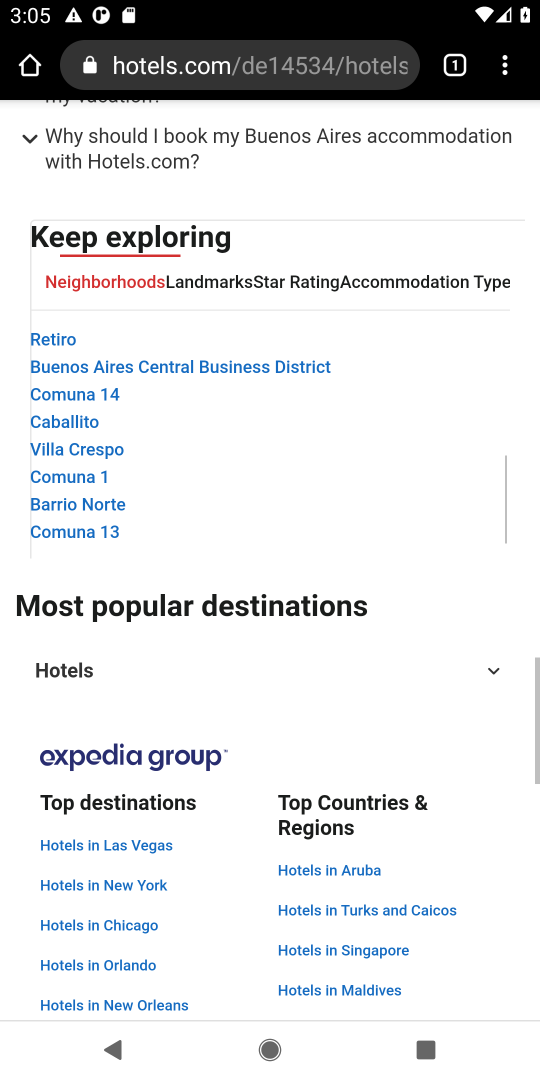
Step 56: drag from (258, 431) to (241, 719)
Your task to perform on an android device: Search for hotels in Buenos aires Image 57: 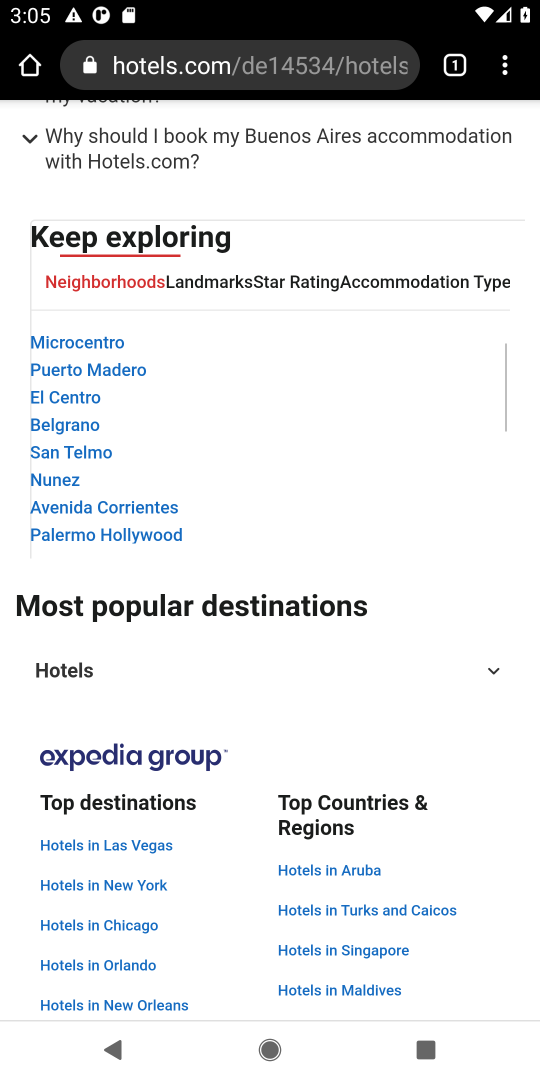
Step 57: drag from (267, 426) to (263, 756)
Your task to perform on an android device: Search for hotels in Buenos aires Image 58: 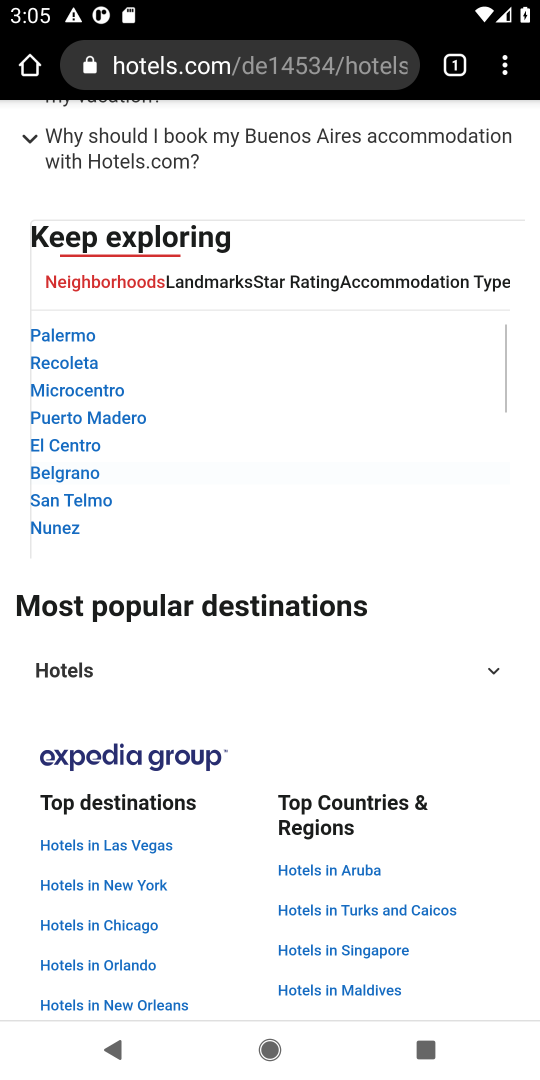
Step 58: drag from (310, 553) to (331, 760)
Your task to perform on an android device: Search for hotels in Buenos aires Image 59: 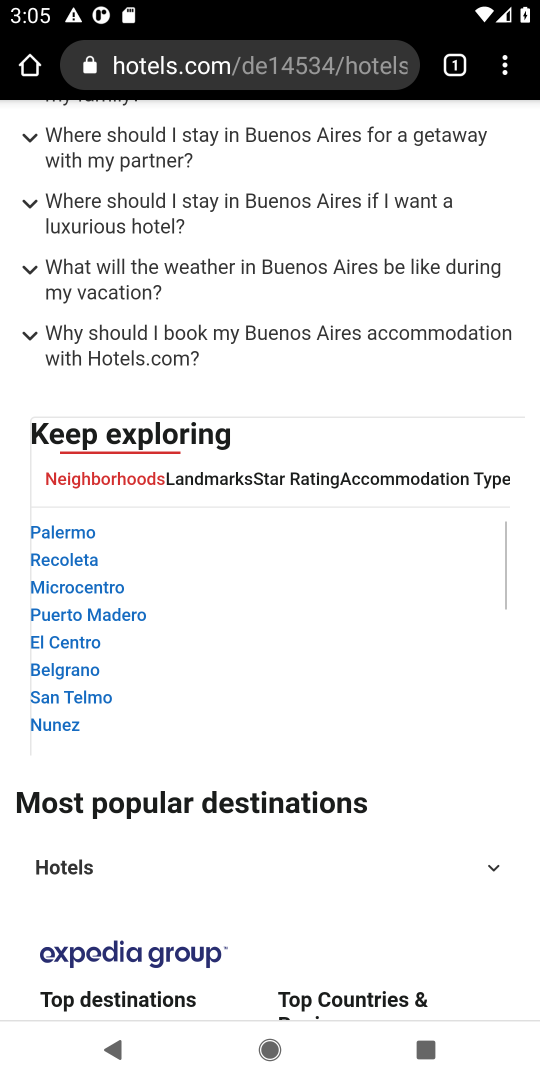
Step 59: drag from (361, 444) to (372, 761)
Your task to perform on an android device: Search for hotels in Buenos aires Image 60: 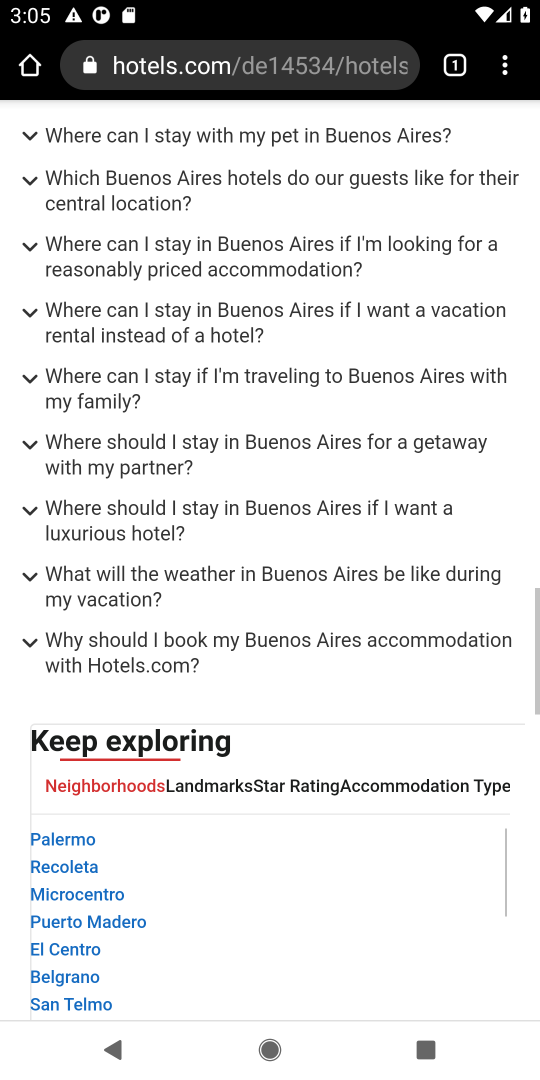
Step 60: drag from (387, 365) to (343, 578)
Your task to perform on an android device: Search for hotels in Buenos aires Image 61: 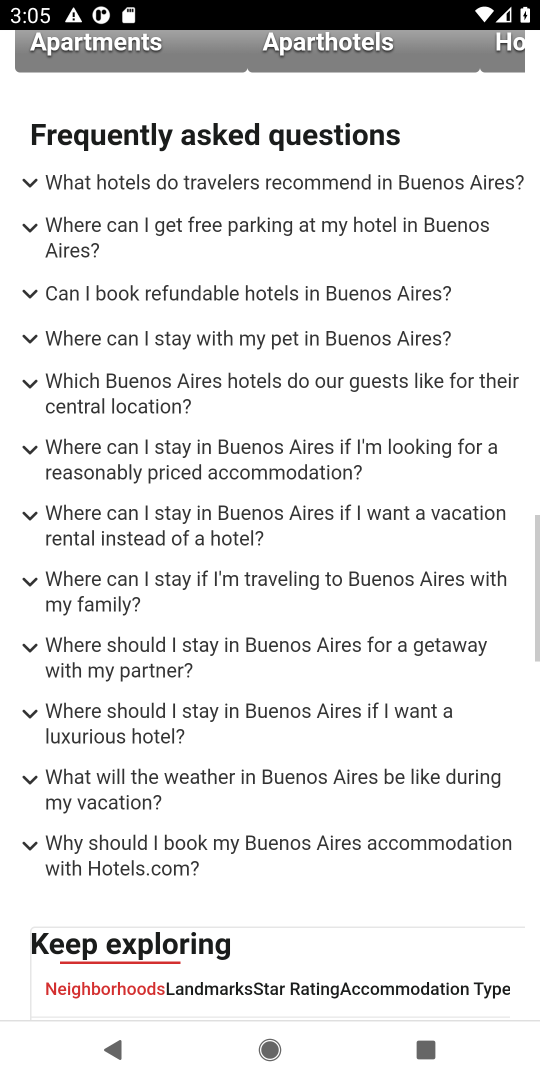
Step 61: press back button
Your task to perform on an android device: Search for hotels in Buenos aires Image 62: 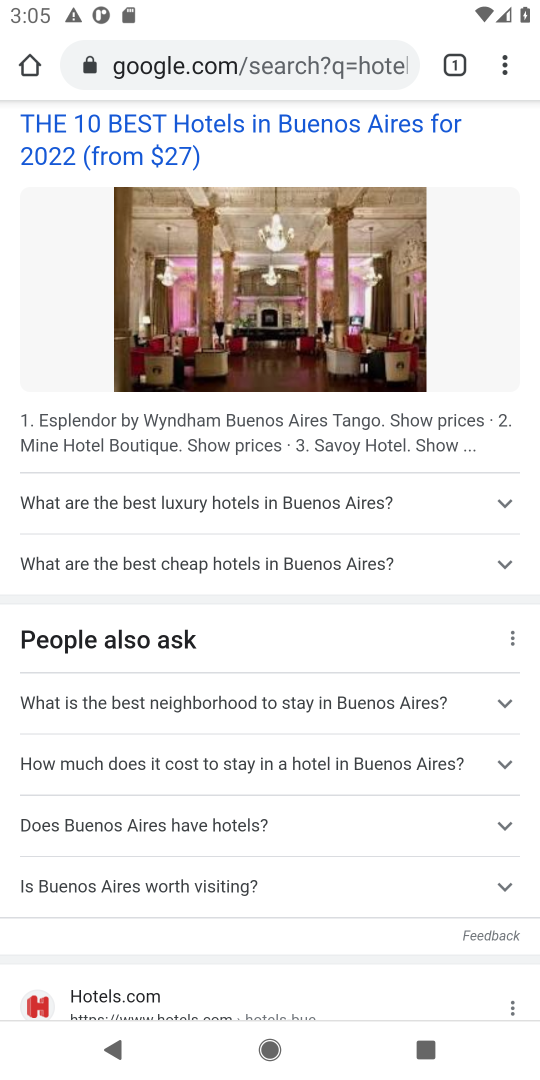
Step 62: drag from (394, 648) to (407, 122)
Your task to perform on an android device: Search for hotels in Buenos aires Image 63: 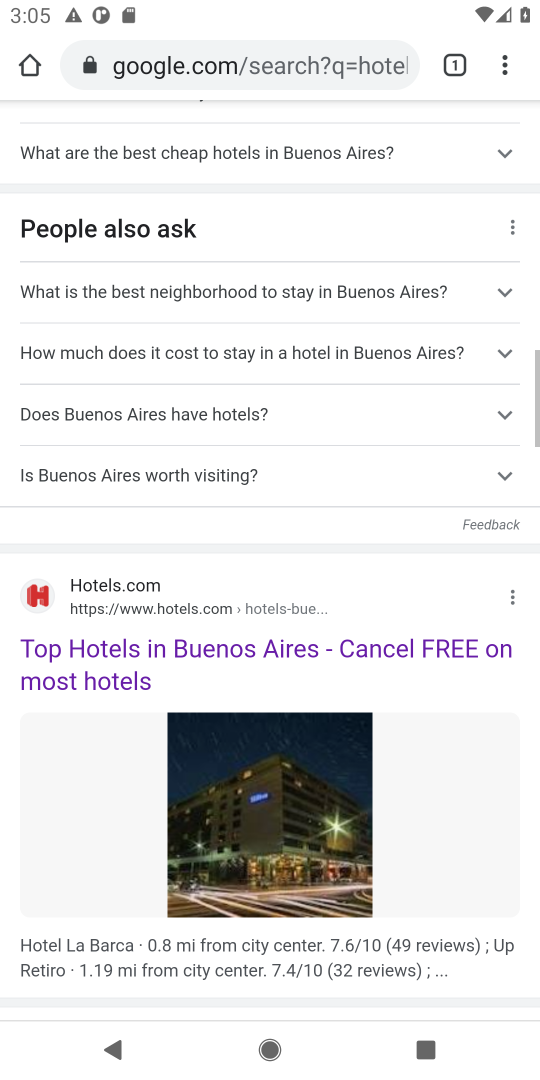
Step 63: drag from (379, 481) to (385, 325)
Your task to perform on an android device: Search for hotels in Buenos aires Image 64: 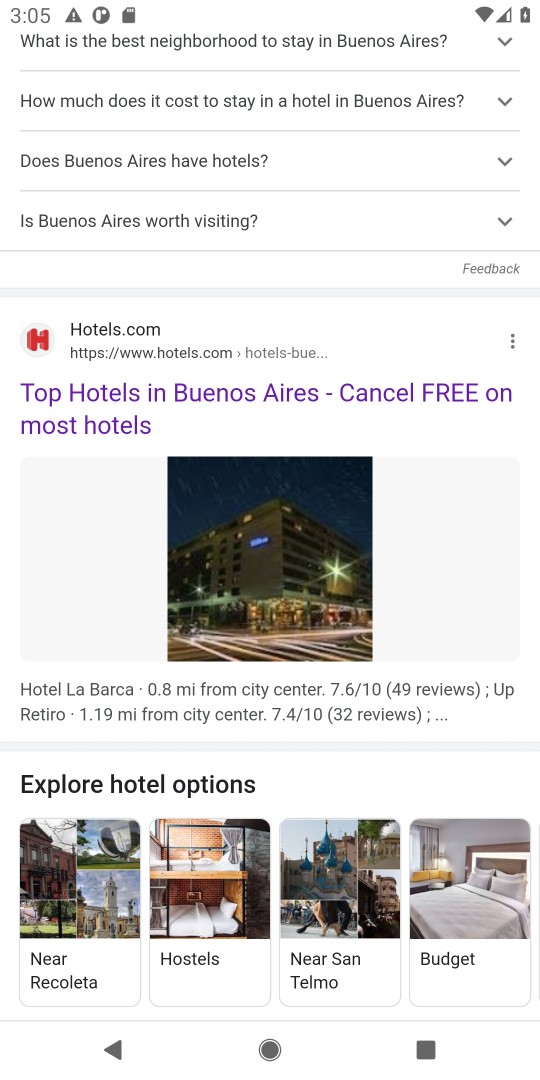
Step 64: drag from (267, 410) to (399, 161)
Your task to perform on an android device: Search for hotels in Buenos aires Image 65: 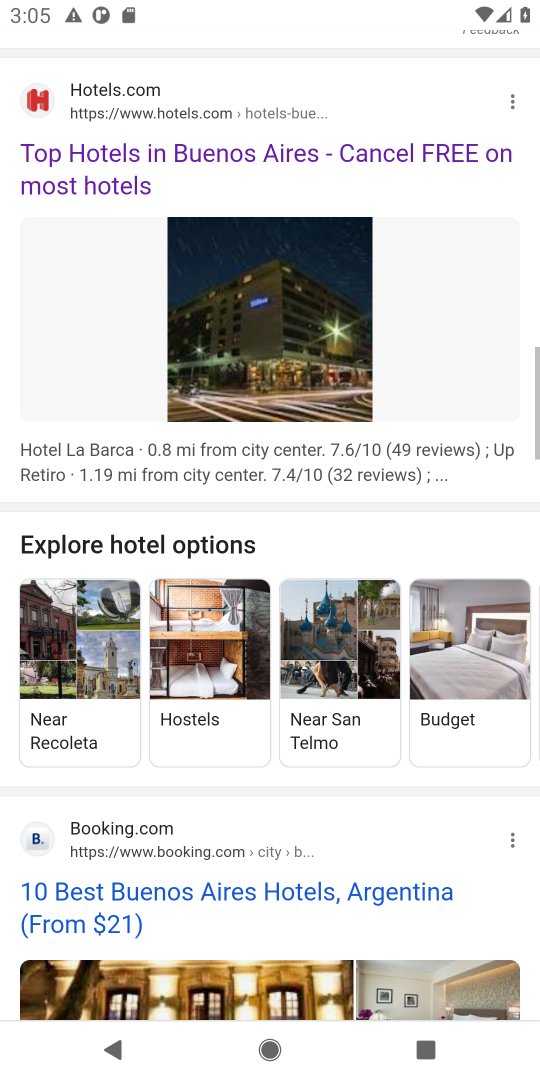
Step 65: drag from (402, 282) to (406, 129)
Your task to perform on an android device: Search for hotels in Buenos aires Image 66: 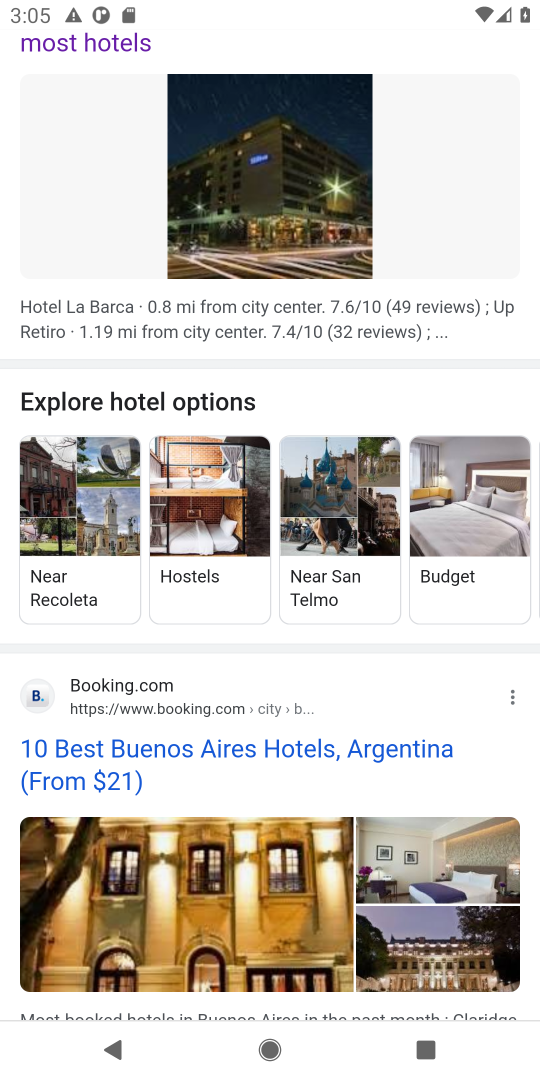
Step 66: click (209, 754)
Your task to perform on an android device: Search for hotels in Buenos aires Image 67: 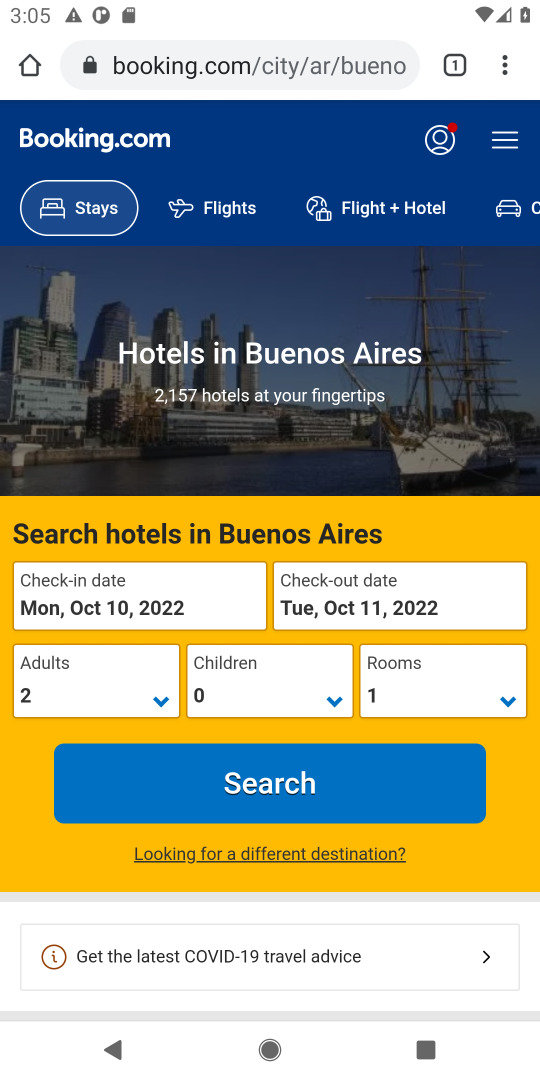
Step 67: drag from (271, 460) to (300, 222)
Your task to perform on an android device: Search for hotels in Buenos aires Image 68: 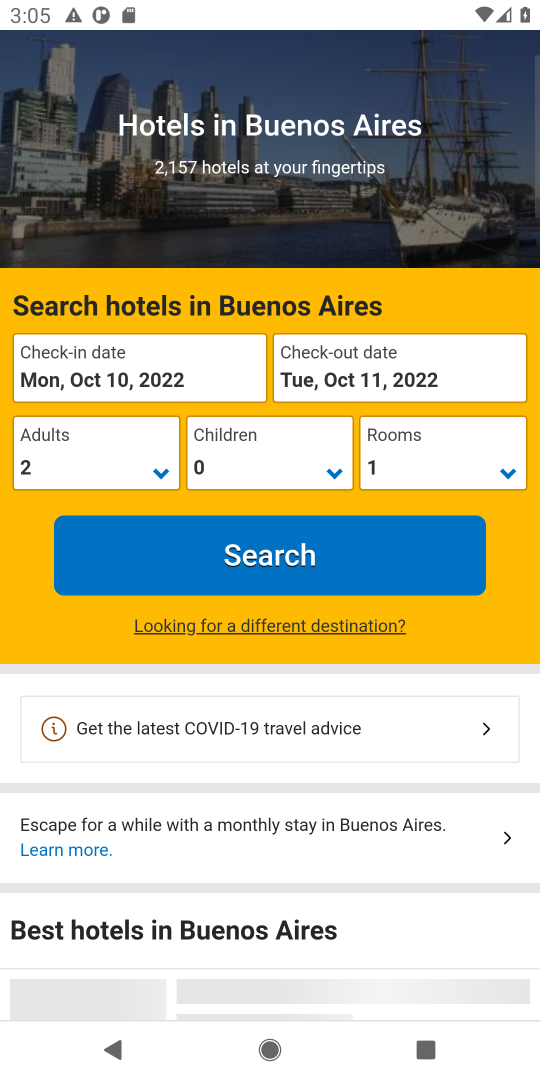
Step 68: drag from (215, 682) to (308, 211)
Your task to perform on an android device: Search for hotels in Buenos aires Image 69: 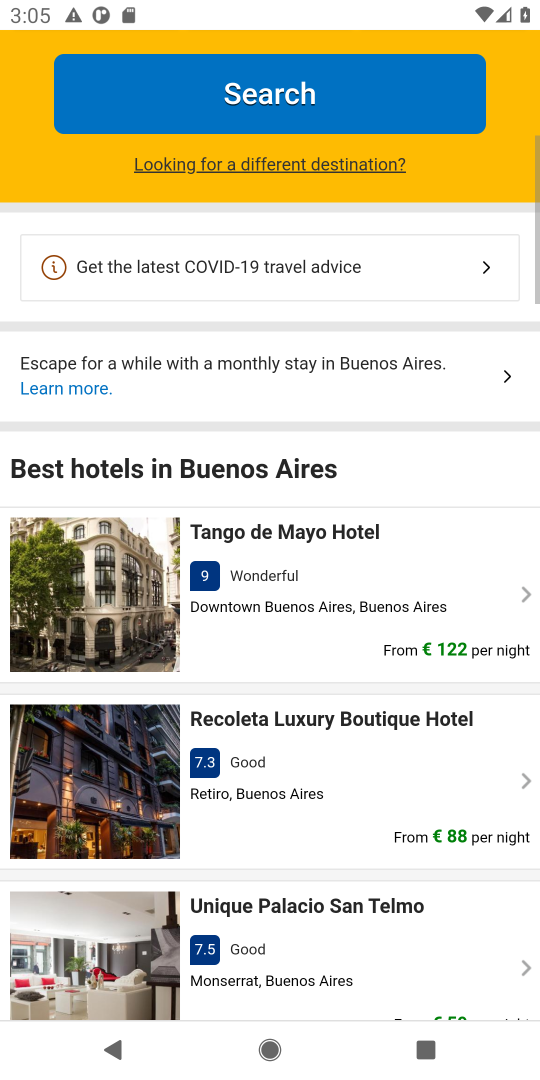
Step 69: drag from (346, 647) to (318, 536)
Your task to perform on an android device: Search for hotels in Buenos aires Image 70: 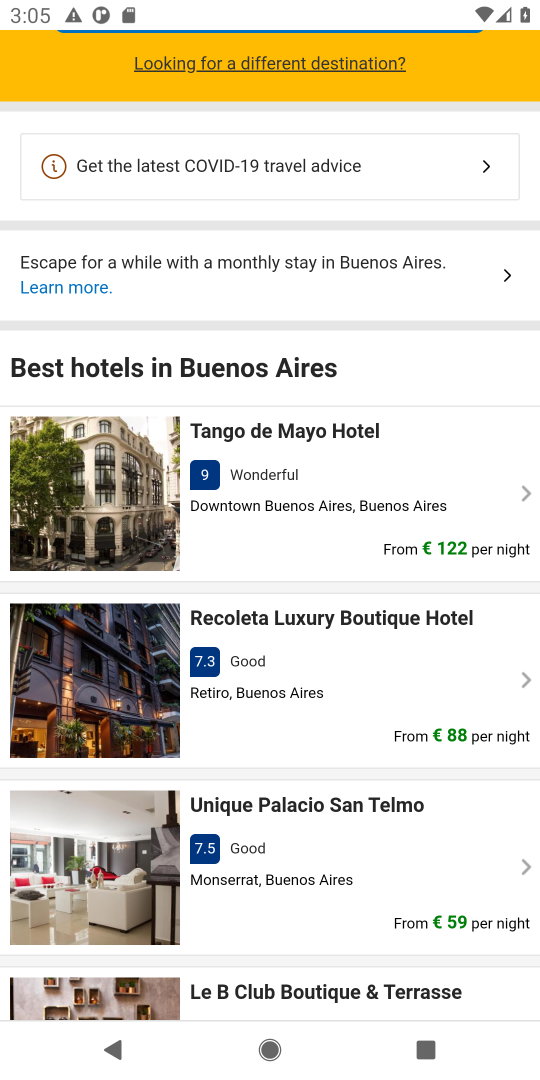
Step 70: drag from (306, 635) to (359, 380)
Your task to perform on an android device: Search for hotels in Buenos aires Image 71: 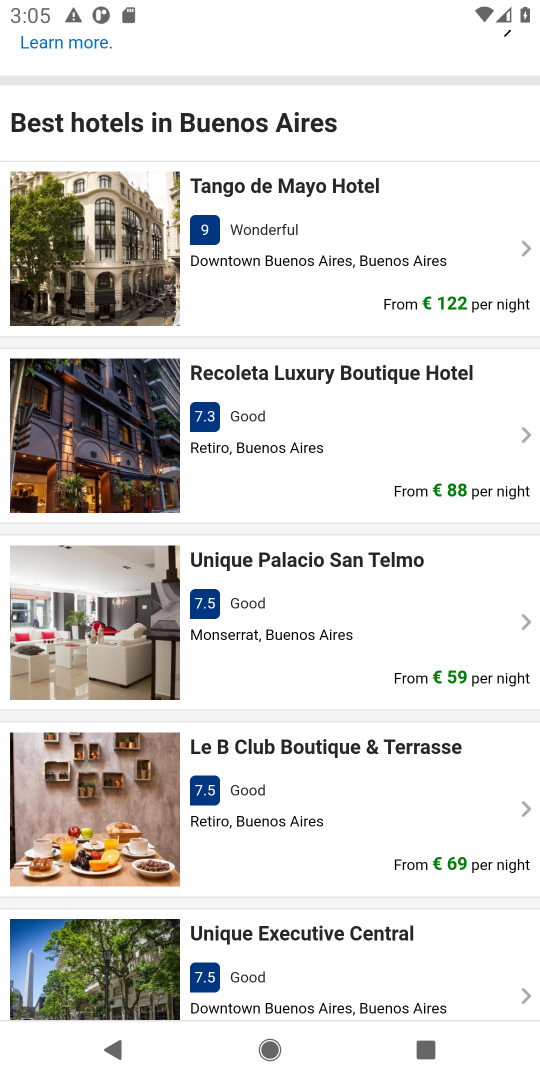
Step 71: click (346, 425)
Your task to perform on an android device: Search for hotels in Buenos aires Image 72: 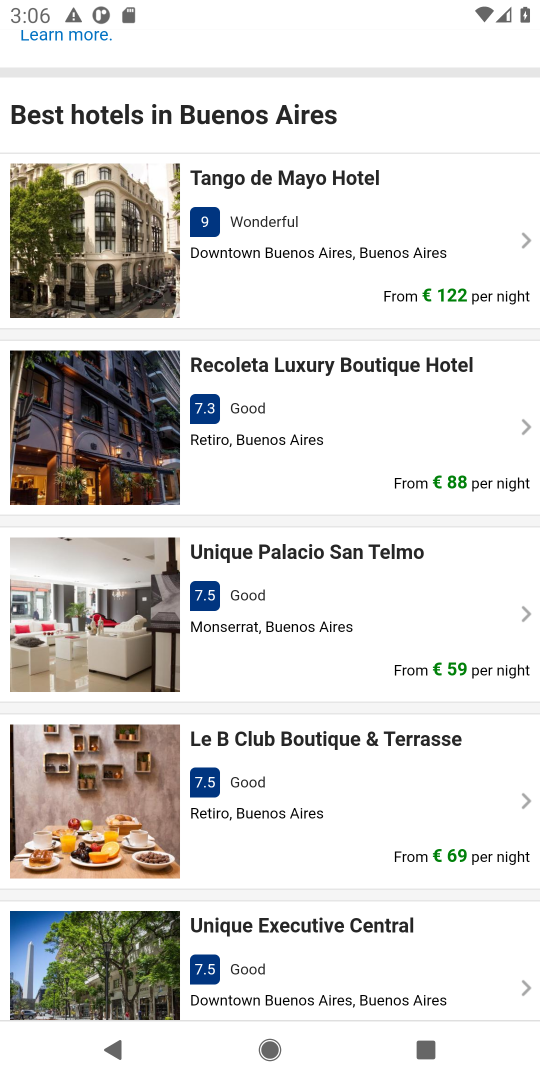
Step 72: drag from (371, 600) to (374, 423)
Your task to perform on an android device: Search for hotels in Buenos aires Image 73: 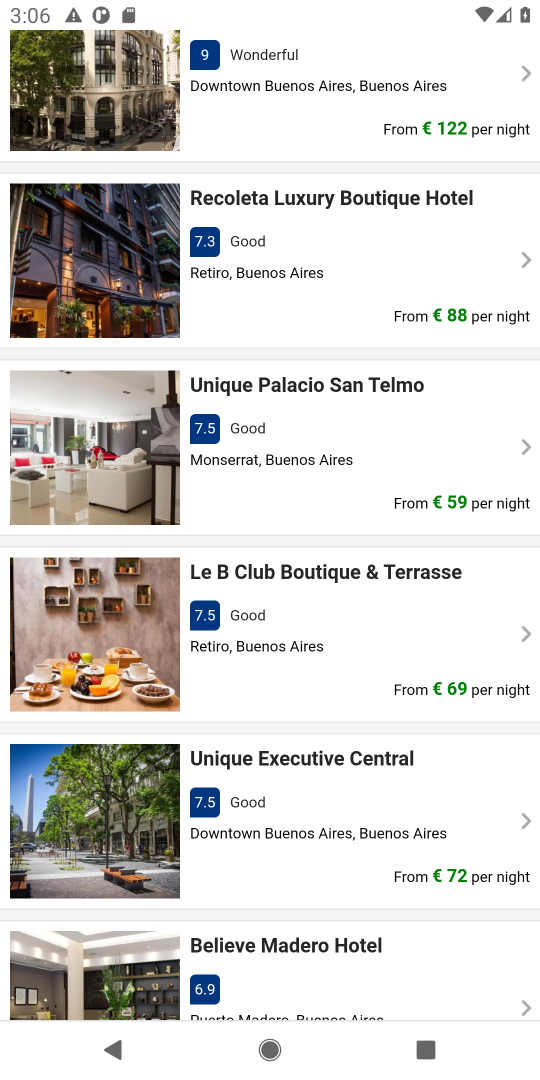
Step 73: drag from (345, 576) to (377, 357)
Your task to perform on an android device: Search for hotels in Buenos aires Image 74: 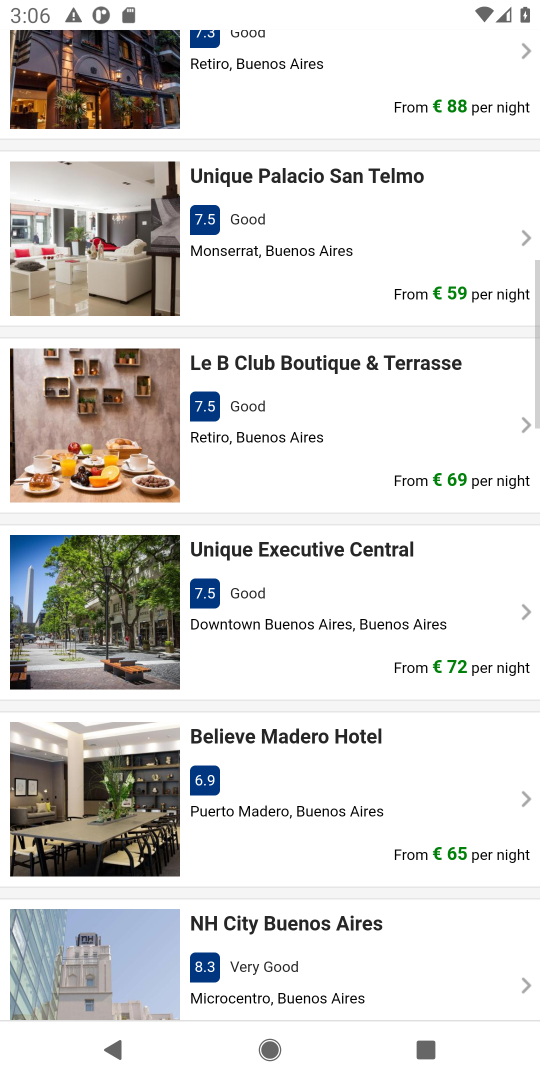
Step 74: click (381, 316)
Your task to perform on an android device: Search for hotels in Buenos aires Image 75: 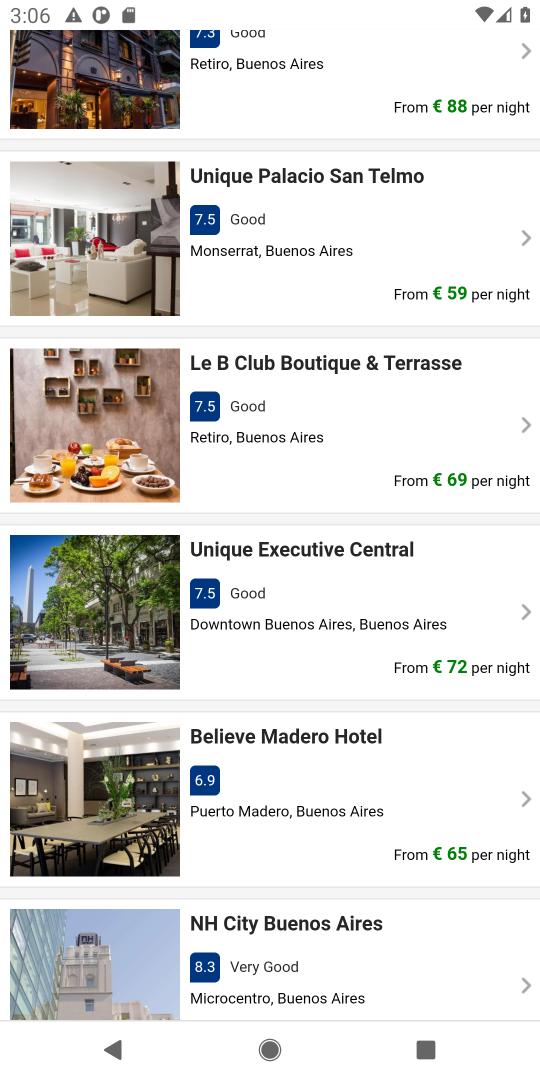
Step 75: click (364, 425)
Your task to perform on an android device: Search for hotels in Buenos aires Image 76: 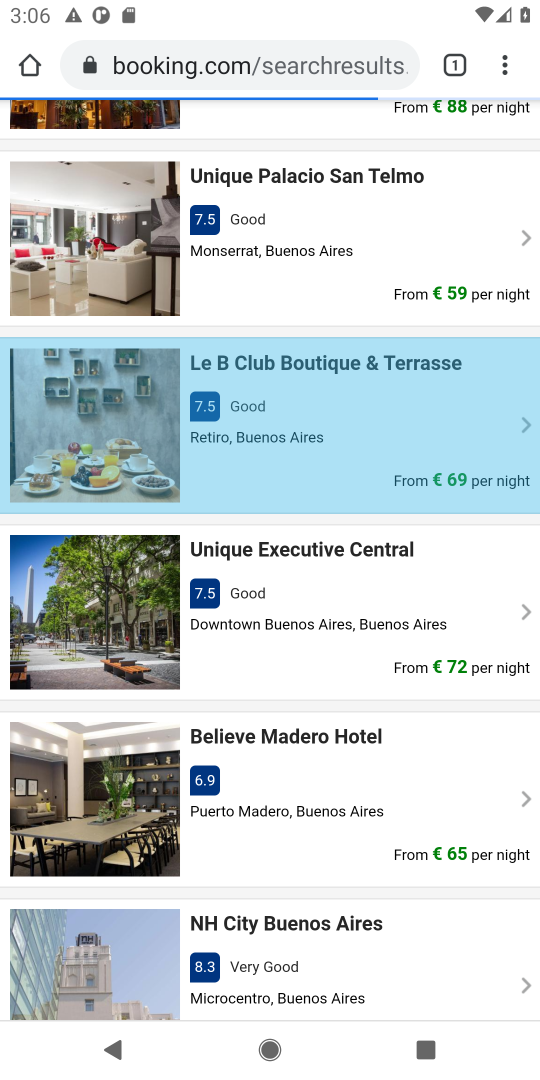
Step 76: drag from (376, 392) to (380, 342)
Your task to perform on an android device: Search for hotels in Buenos aires Image 77: 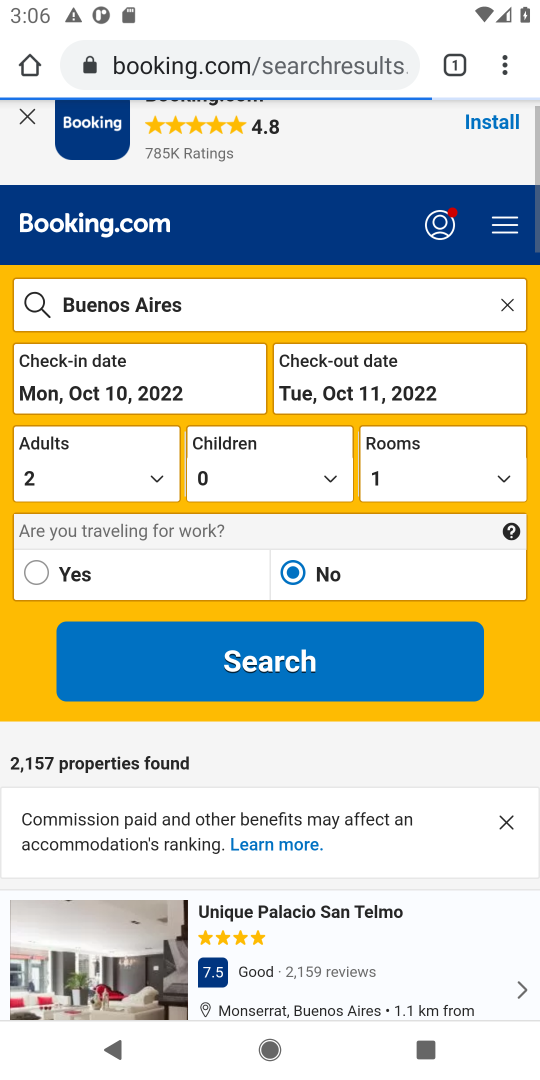
Step 77: drag from (333, 603) to (368, 370)
Your task to perform on an android device: Search for hotels in Buenos aires Image 78: 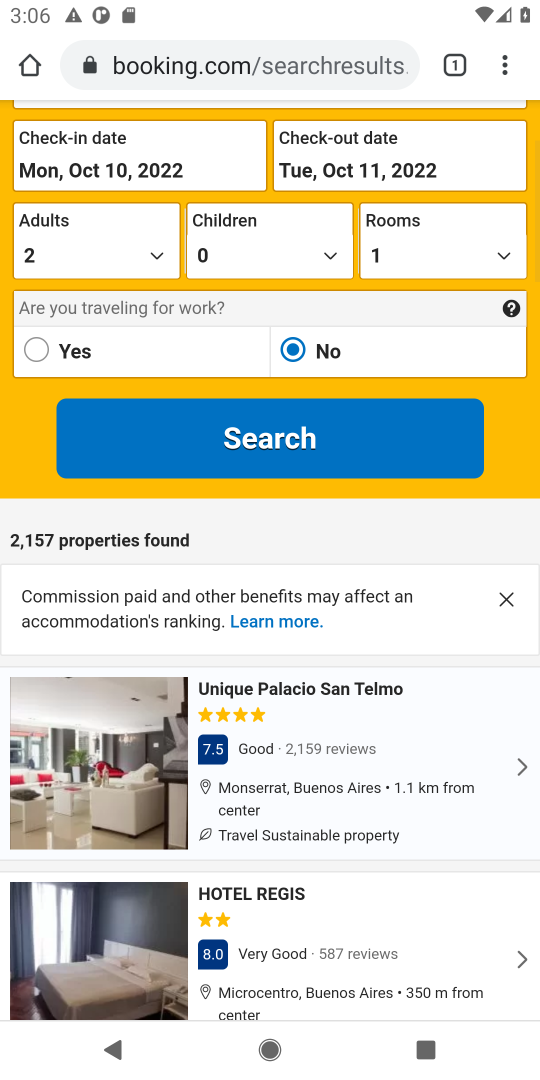
Step 78: drag from (326, 723) to (375, 383)
Your task to perform on an android device: Search for hotels in Buenos aires Image 79: 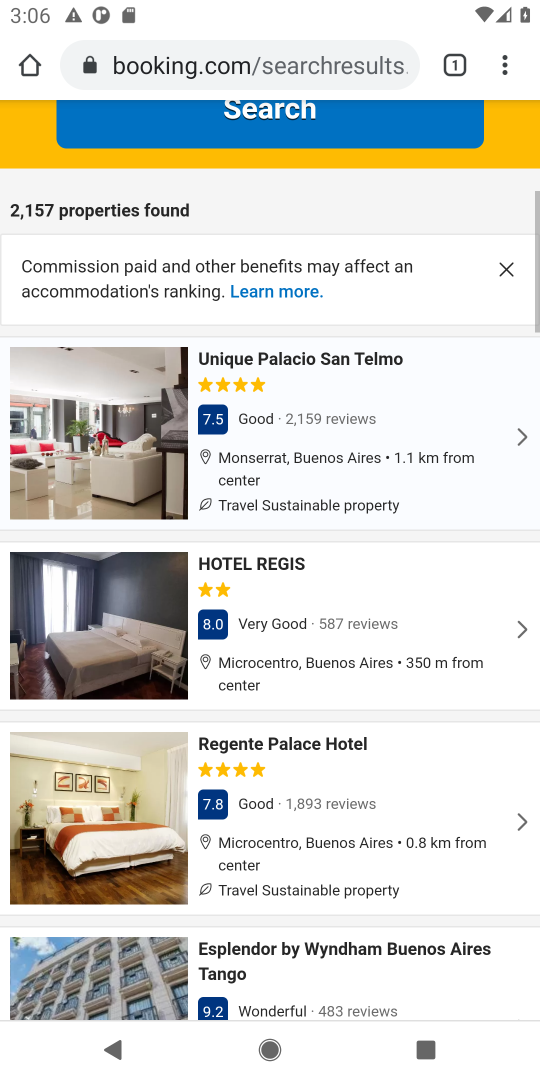
Step 79: click (351, 485)
Your task to perform on an android device: Search for hotels in Buenos aires Image 80: 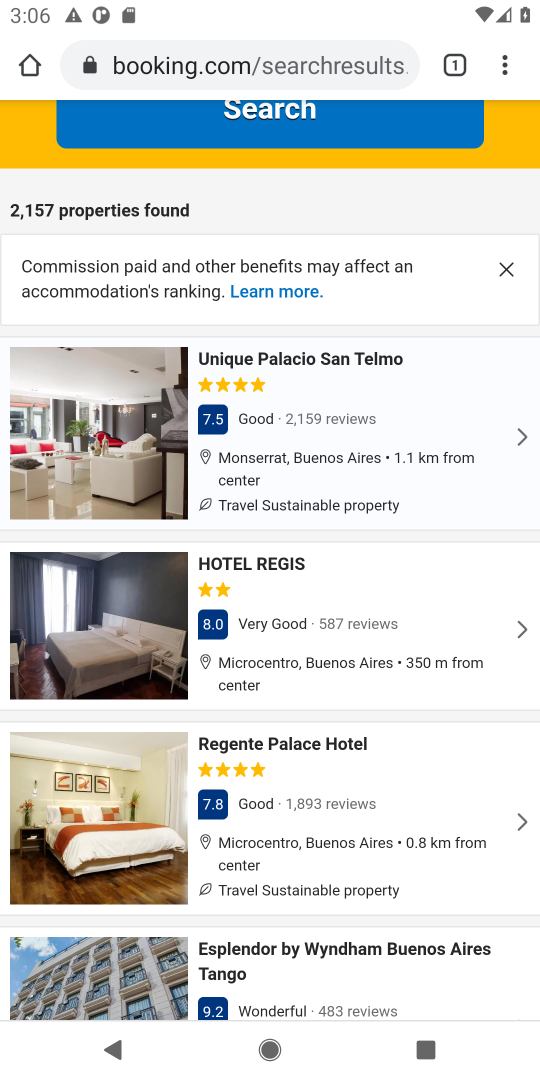
Step 80: drag from (270, 654) to (302, 367)
Your task to perform on an android device: Search for hotels in Buenos aires Image 81: 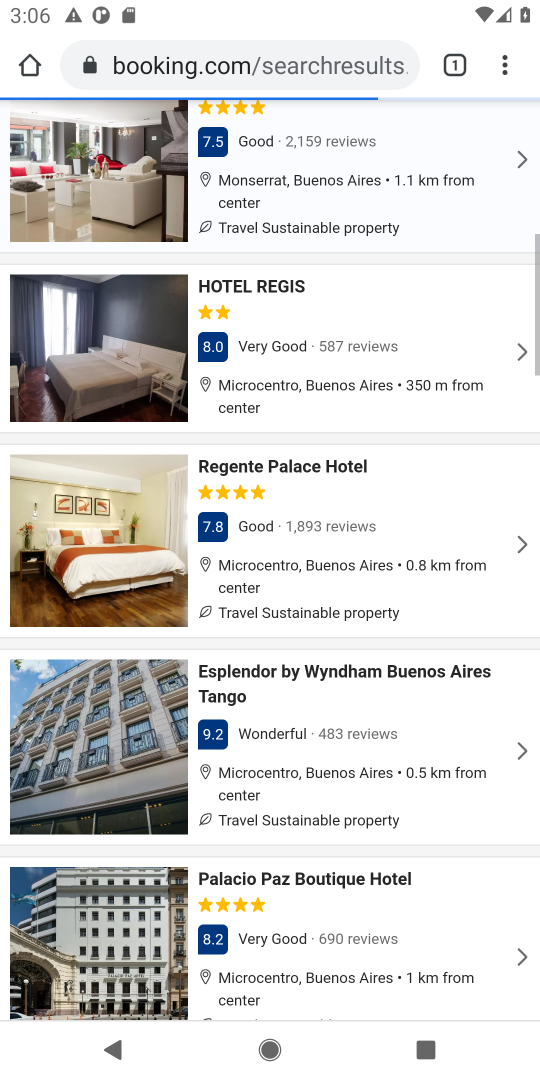
Step 81: click (294, 445)
Your task to perform on an android device: Search for hotels in Buenos aires Image 82: 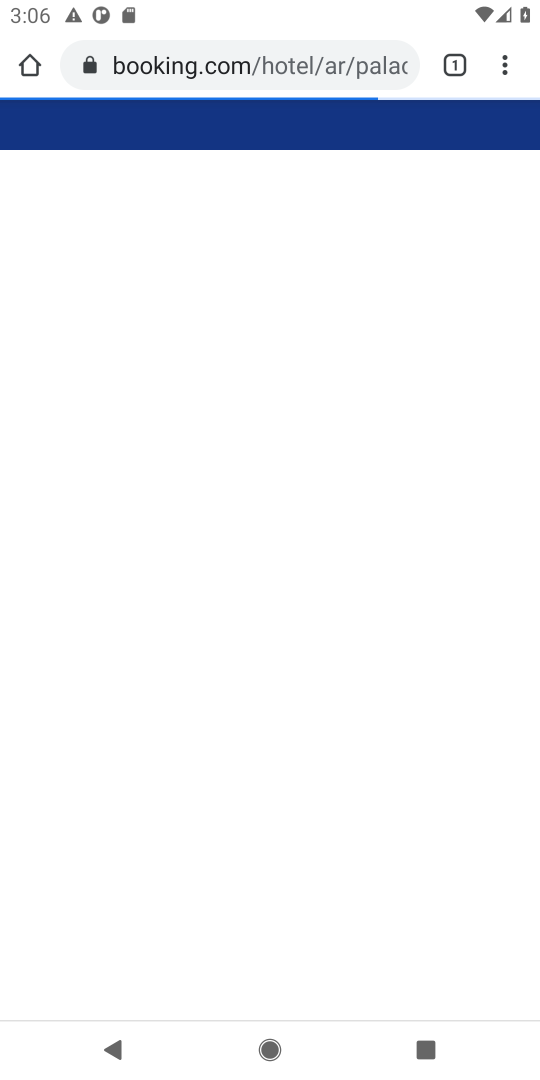
Step 82: drag from (261, 597) to (306, 402)
Your task to perform on an android device: Search for hotels in Buenos aires Image 83: 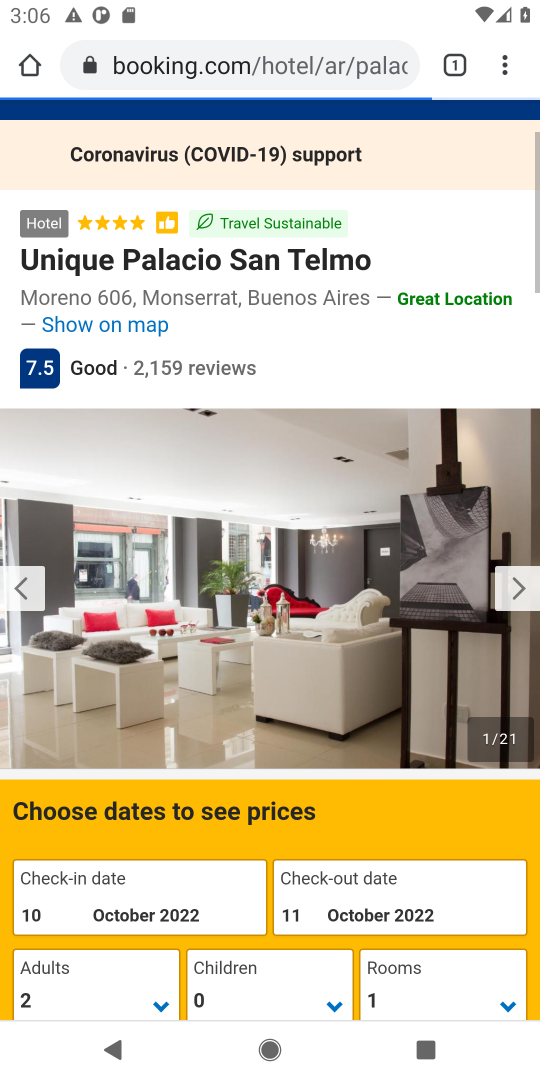
Step 83: drag from (247, 549) to (258, 328)
Your task to perform on an android device: Search for hotels in Buenos aires Image 84: 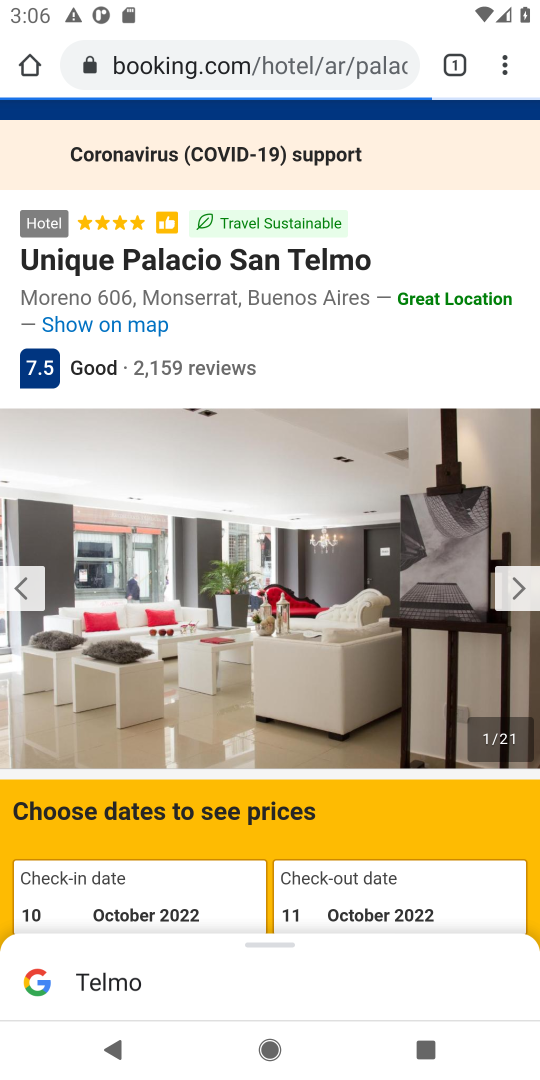
Step 84: drag from (305, 305) to (333, 261)
Your task to perform on an android device: Search for hotels in Buenos aires Image 85: 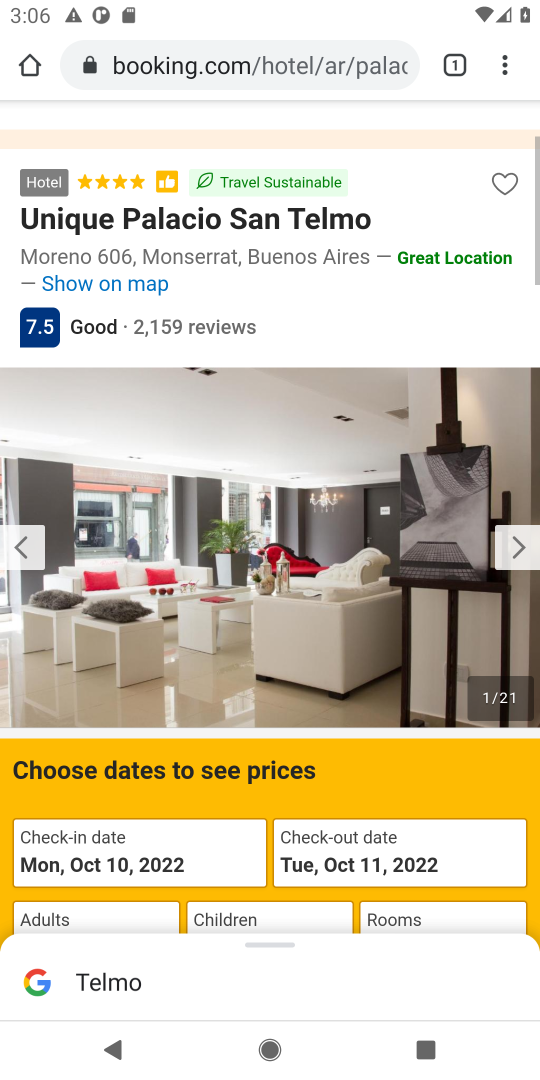
Step 85: drag from (304, 533) to (306, 268)
Your task to perform on an android device: Search for hotels in Buenos aires Image 86: 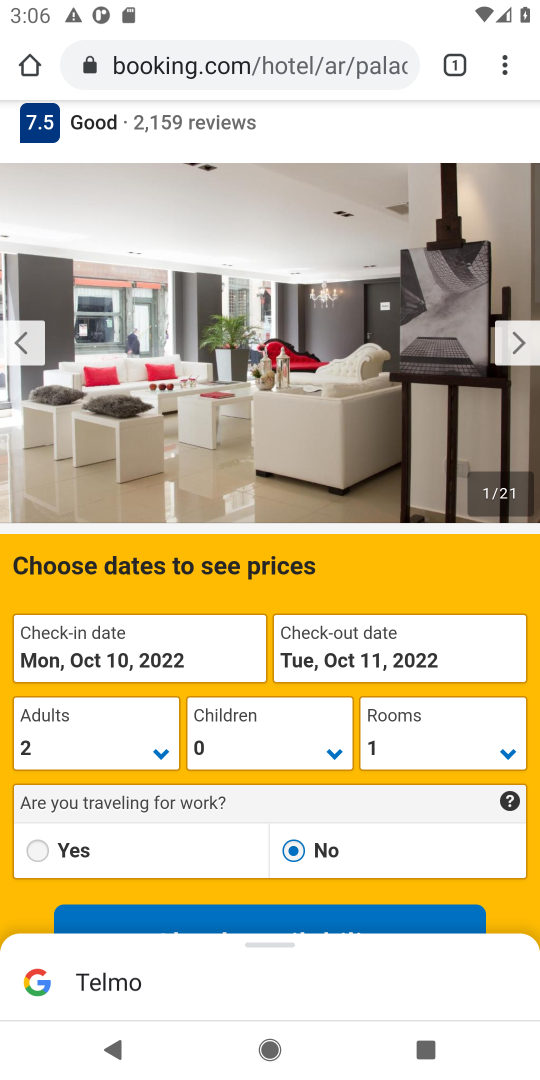
Step 86: click (302, 162)
Your task to perform on an android device: Search for hotels in Buenos aires Image 87: 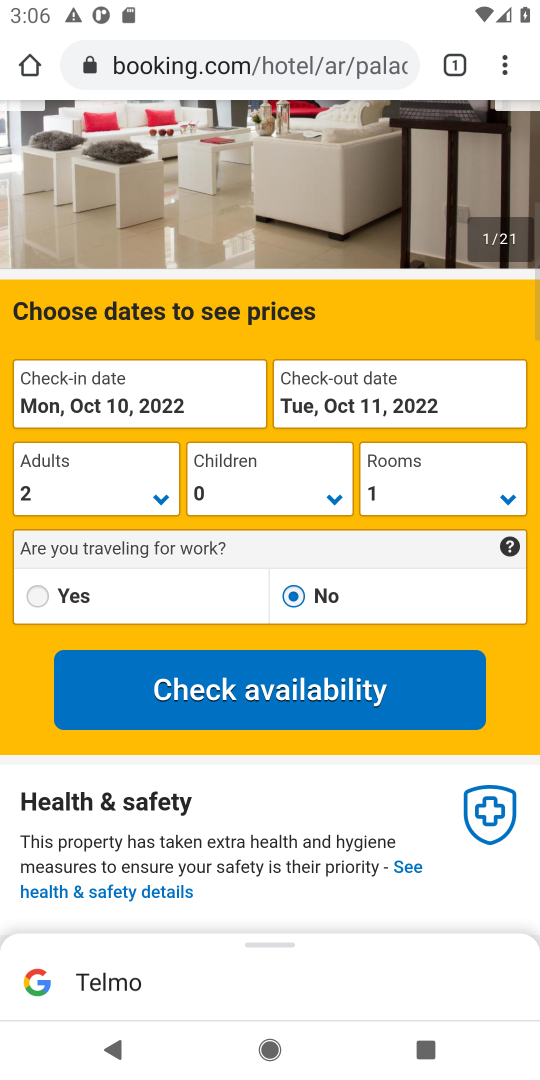
Step 87: click (315, 229)
Your task to perform on an android device: Search for hotels in Buenos aires Image 88: 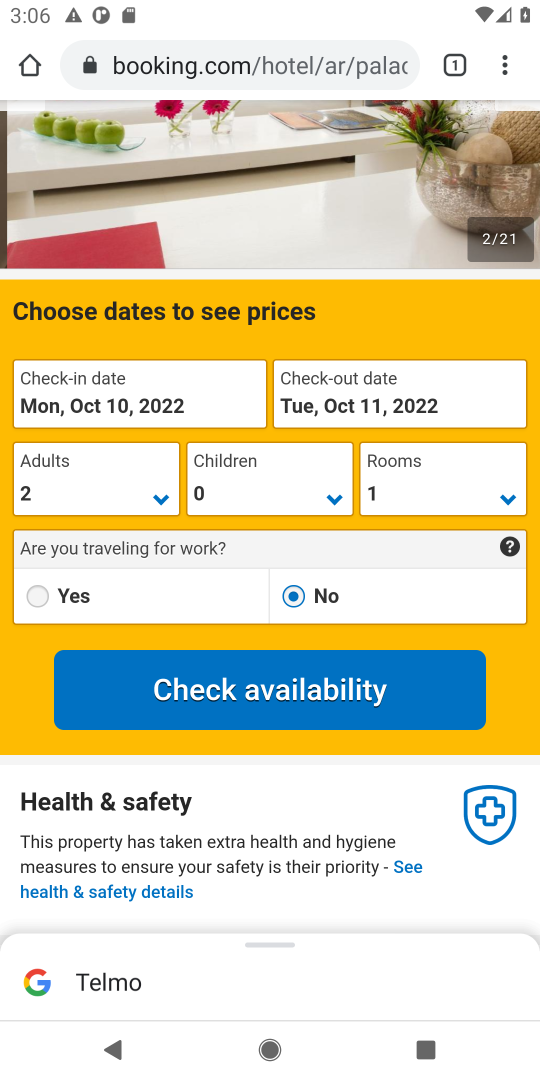
Step 88: task complete